Your task to perform on an android device: move a message to another label in the gmail app Image 0: 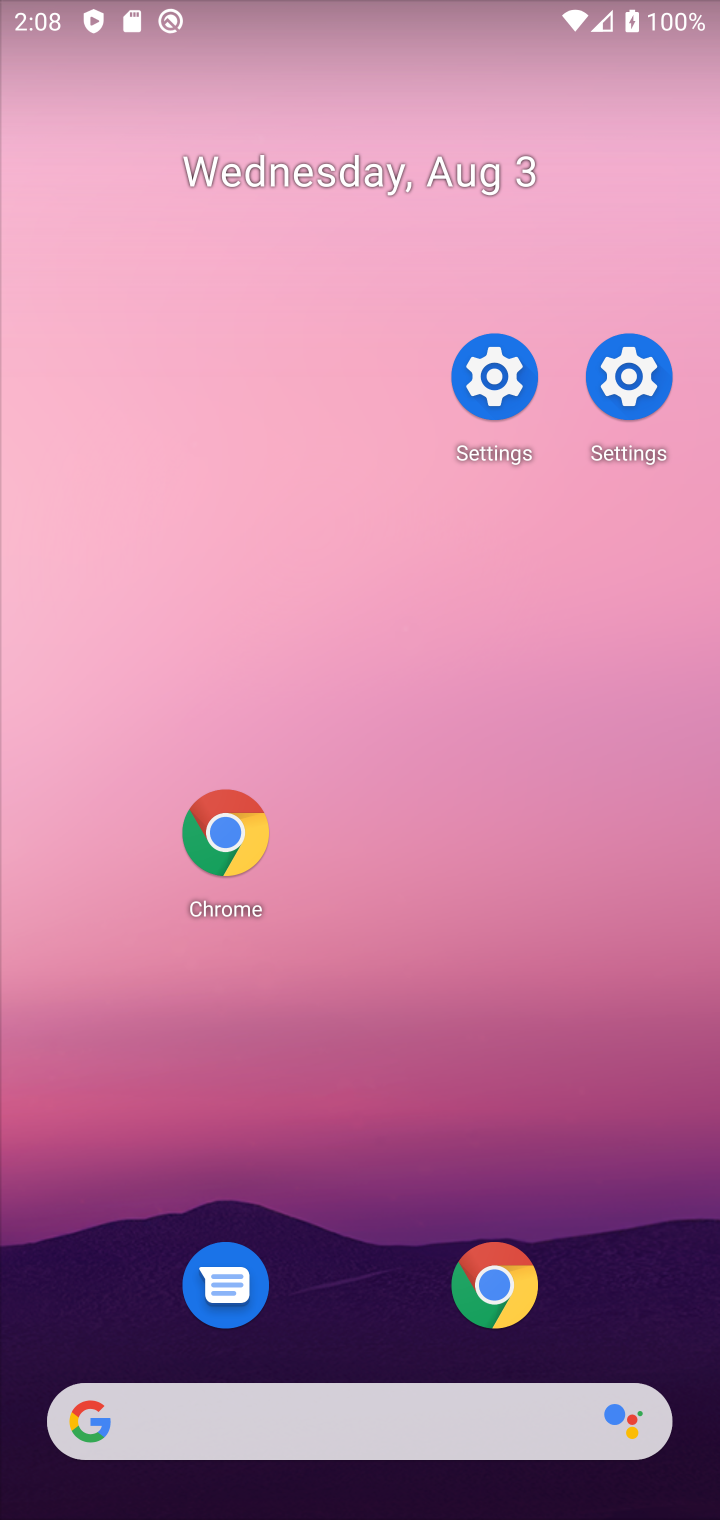
Step 0: drag from (272, 771) to (308, 540)
Your task to perform on an android device: move a message to another label in the gmail app Image 1: 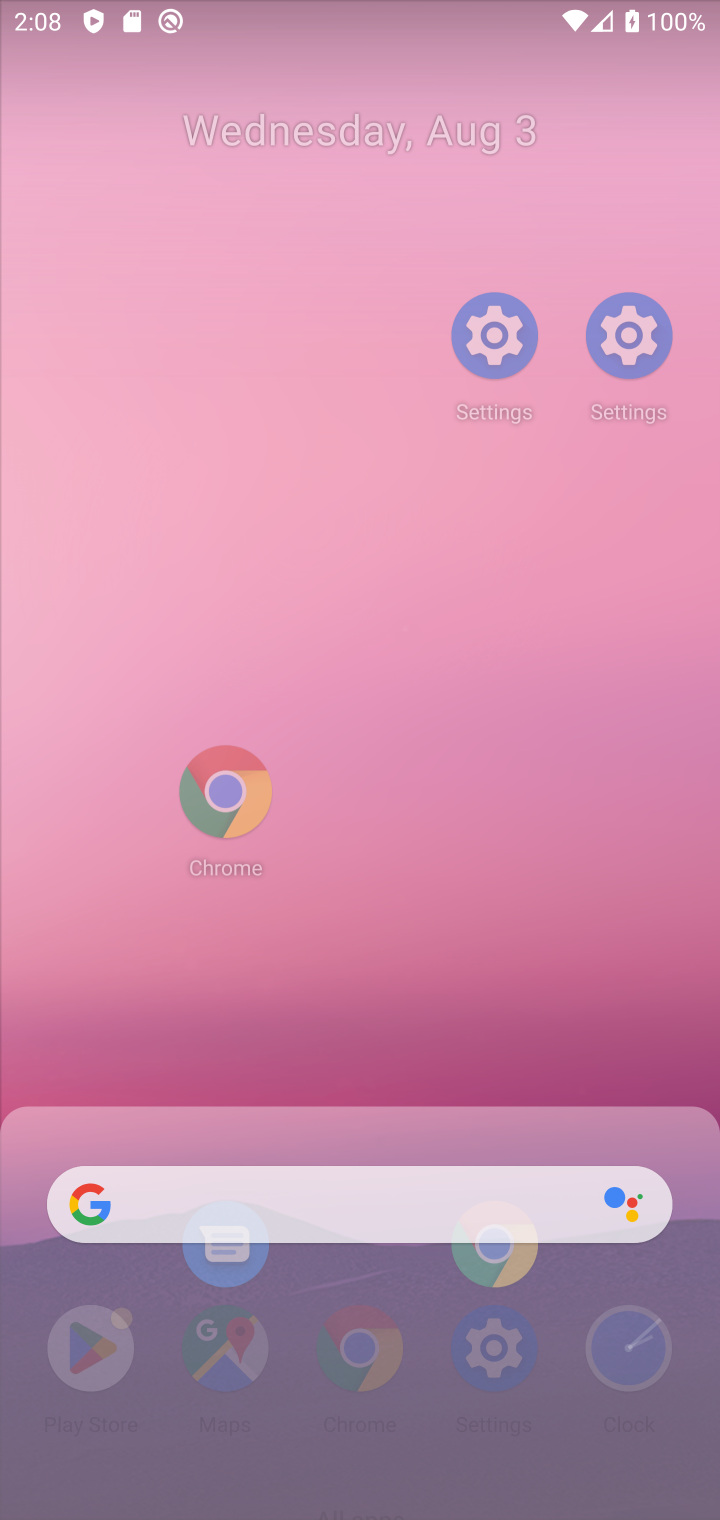
Step 1: drag from (409, 1427) to (389, 101)
Your task to perform on an android device: move a message to another label in the gmail app Image 2: 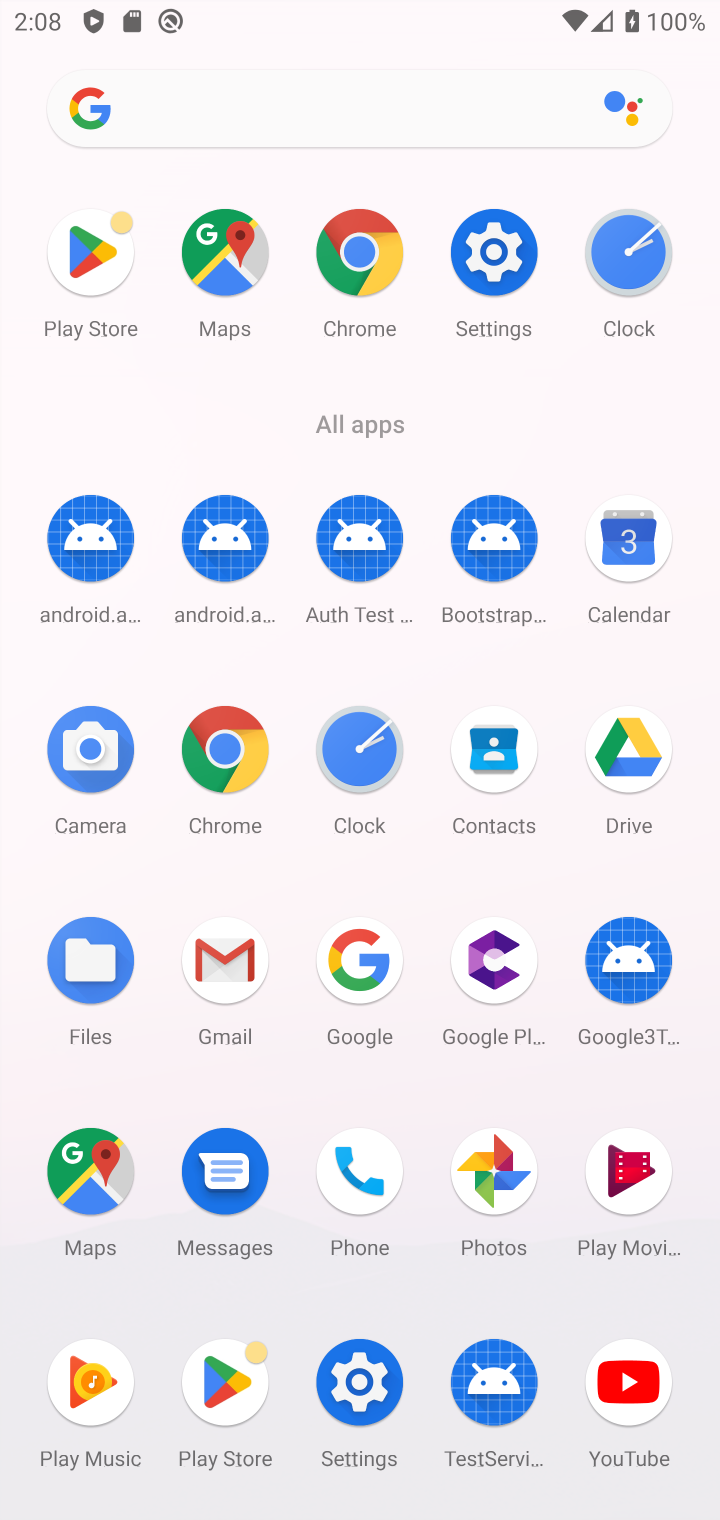
Step 2: click (224, 959)
Your task to perform on an android device: move a message to another label in the gmail app Image 3: 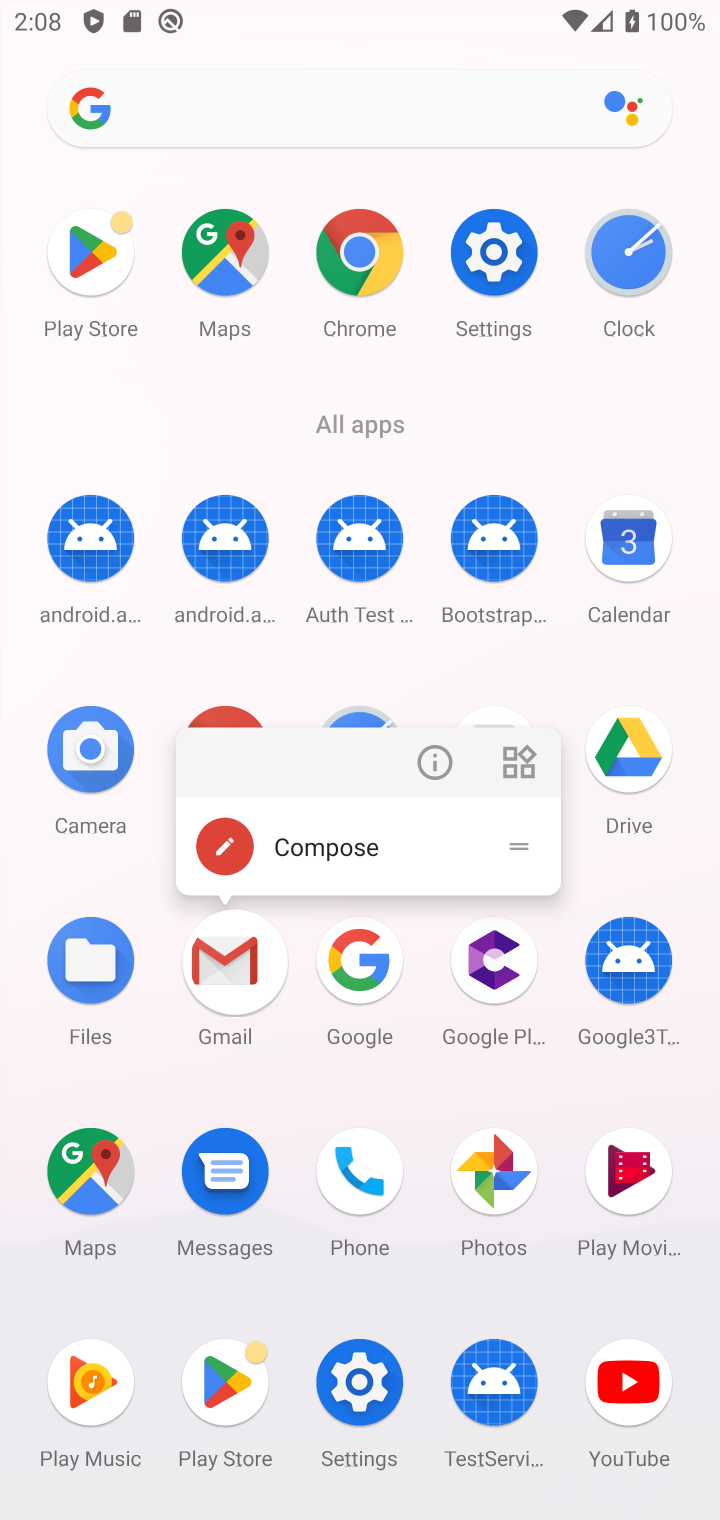
Step 3: click (217, 975)
Your task to perform on an android device: move a message to another label in the gmail app Image 4: 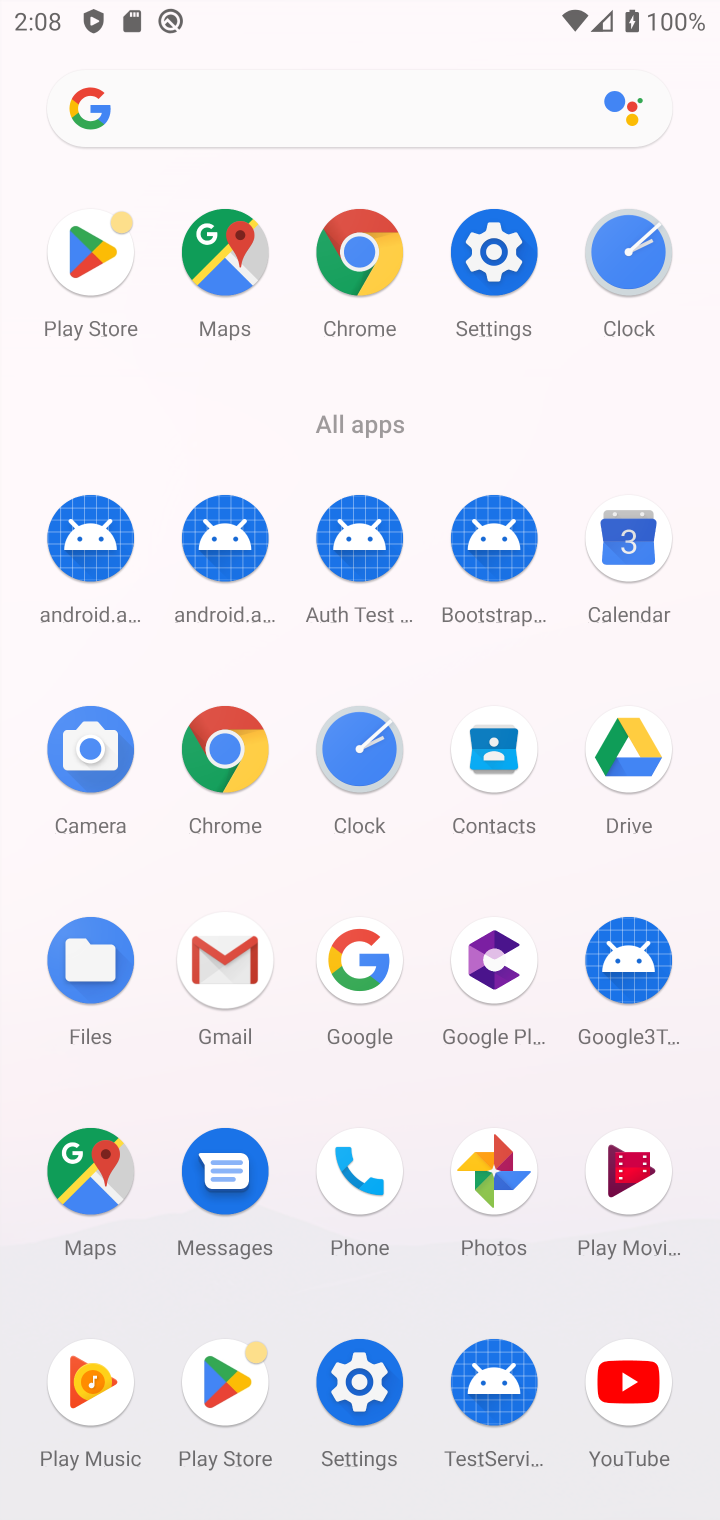
Step 4: click (219, 952)
Your task to perform on an android device: move a message to another label in the gmail app Image 5: 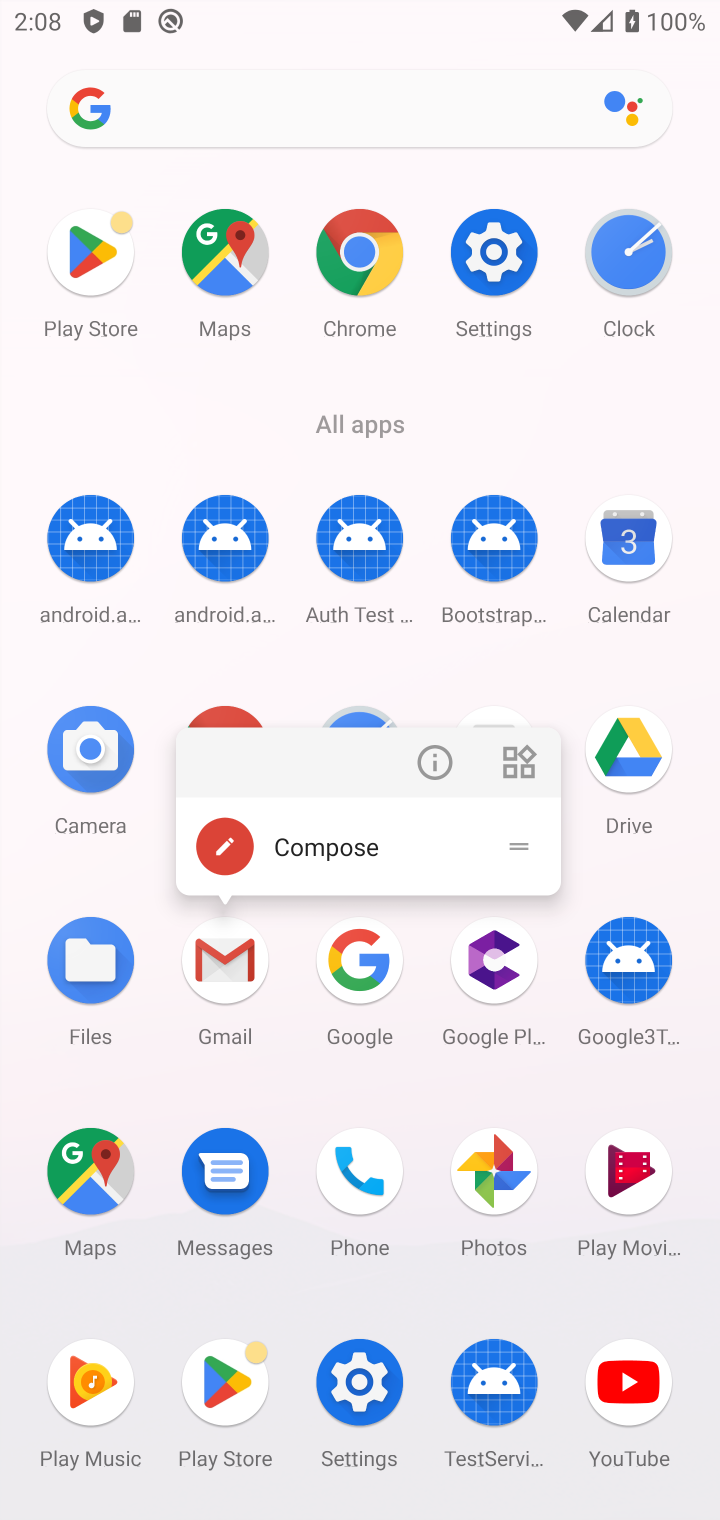
Step 5: click (215, 958)
Your task to perform on an android device: move a message to another label in the gmail app Image 6: 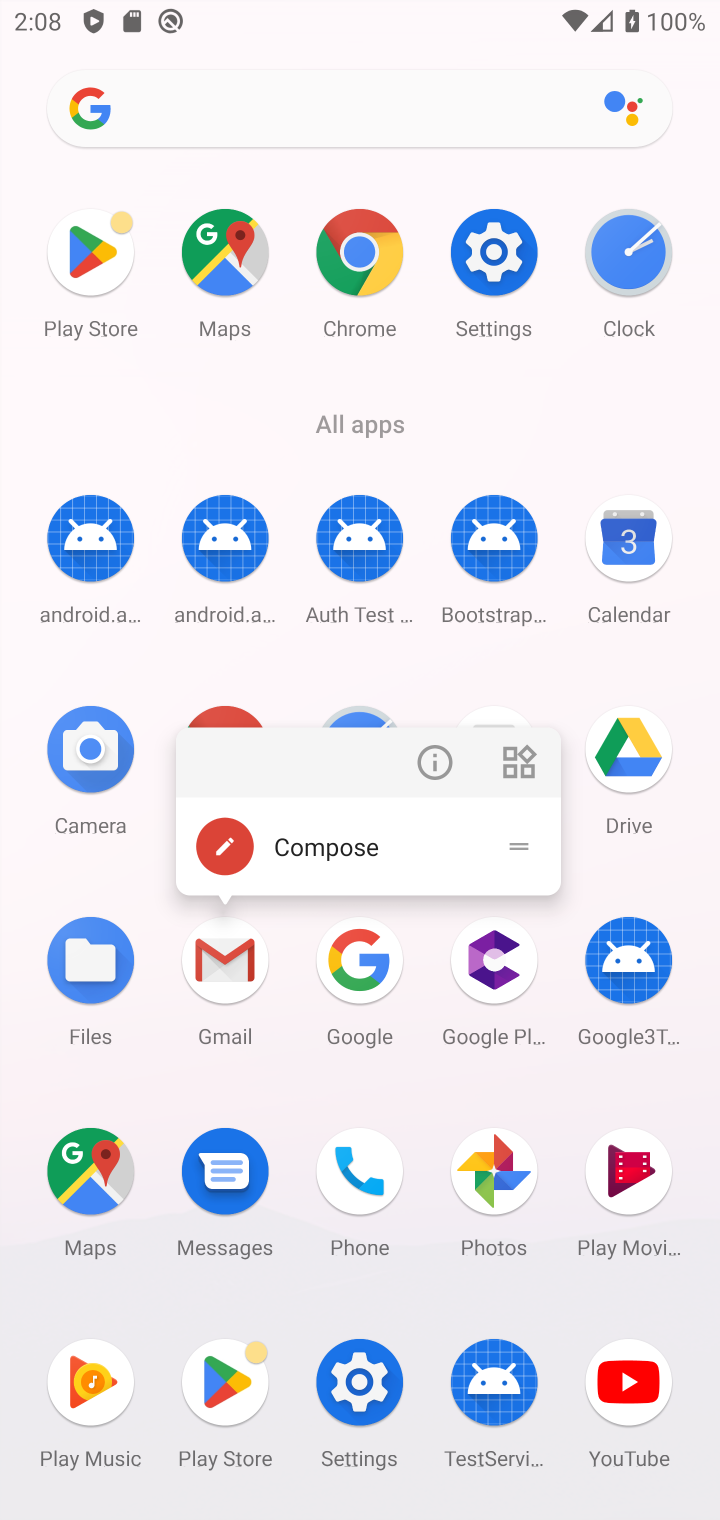
Step 6: click (219, 968)
Your task to perform on an android device: move a message to another label in the gmail app Image 7: 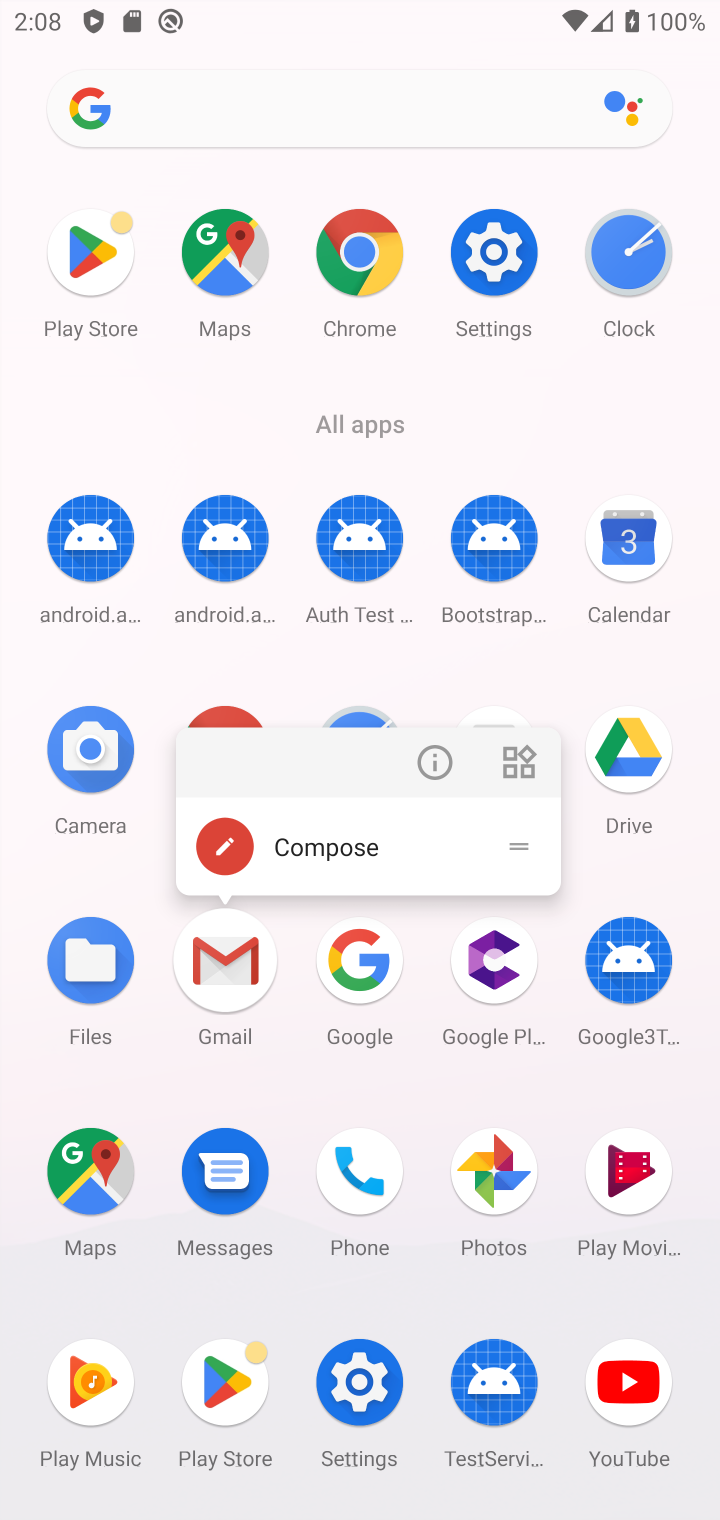
Step 7: click (222, 947)
Your task to perform on an android device: move a message to another label in the gmail app Image 8: 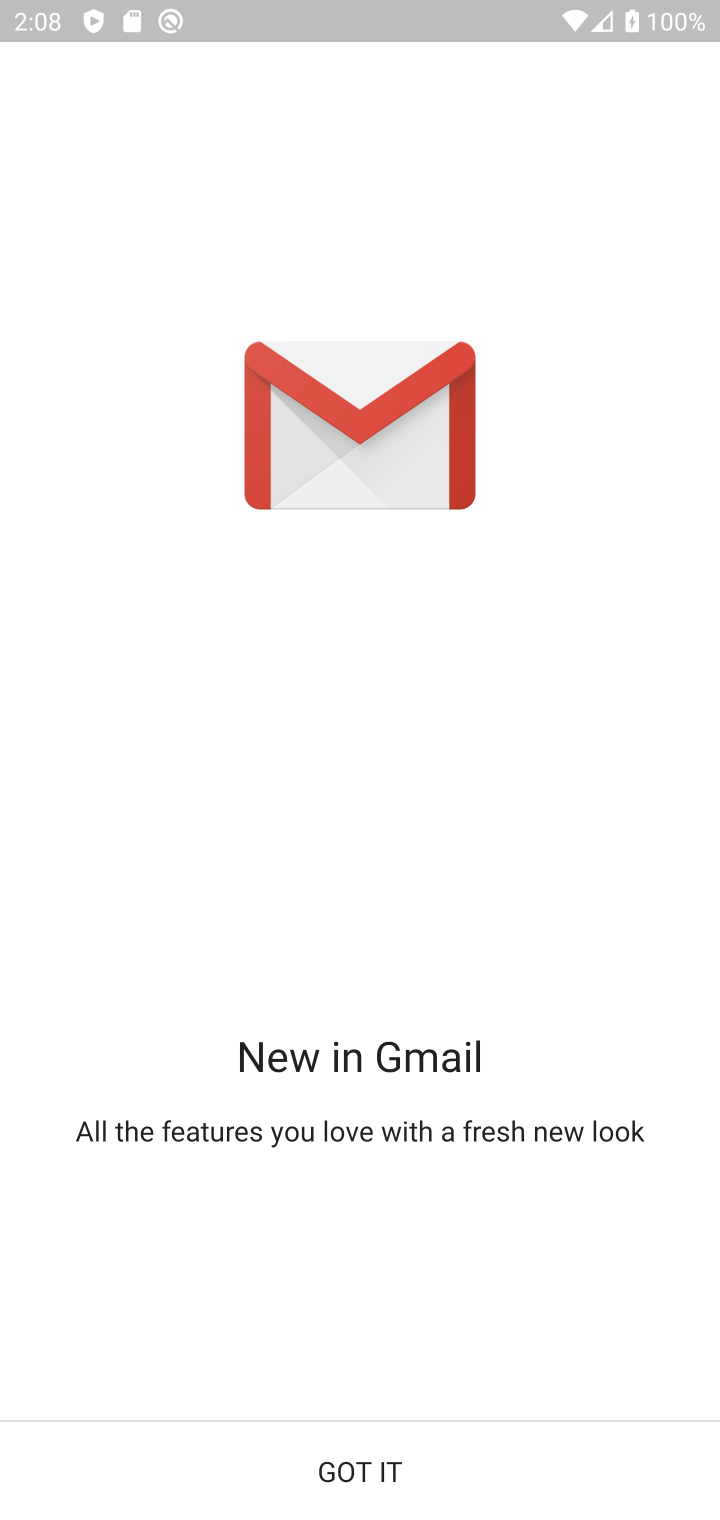
Step 8: click (429, 1446)
Your task to perform on an android device: move a message to another label in the gmail app Image 9: 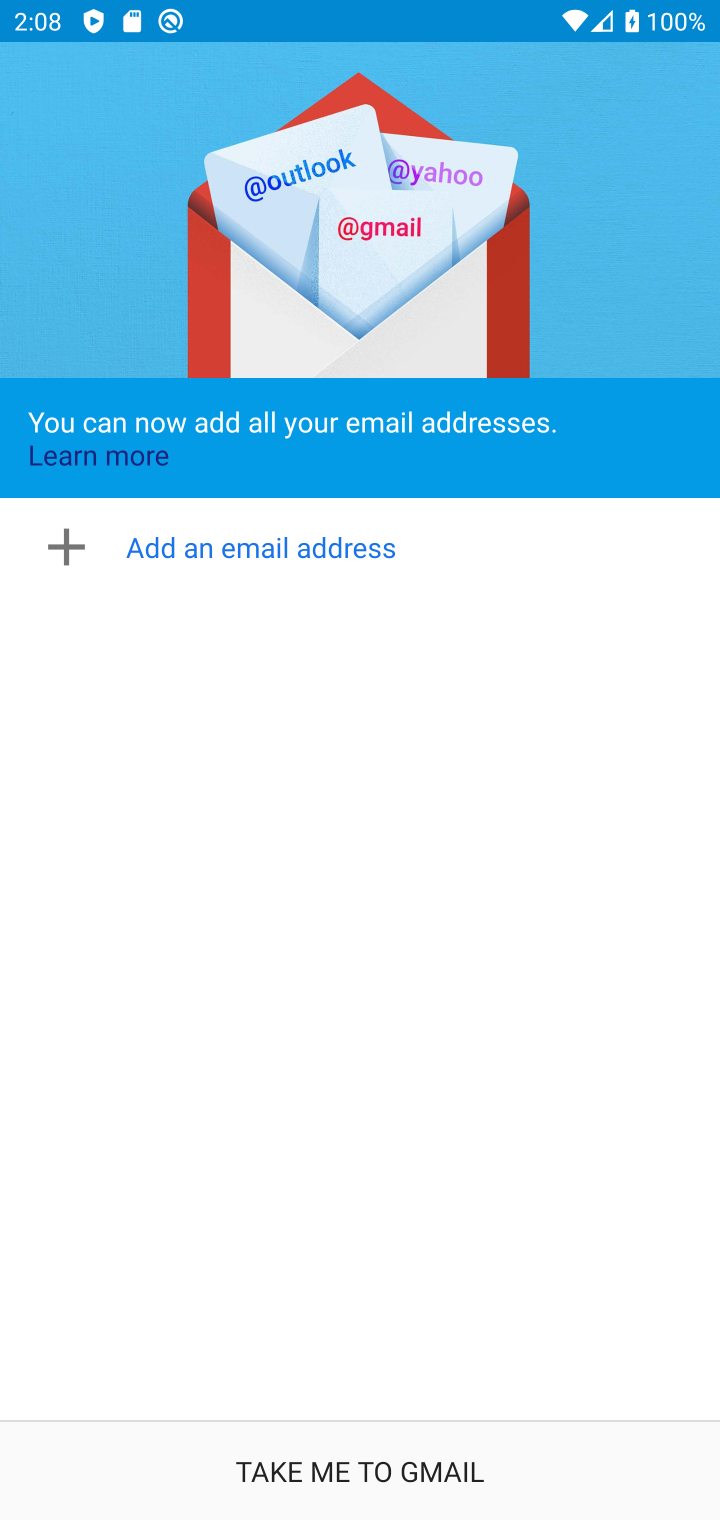
Step 9: press back button
Your task to perform on an android device: move a message to another label in the gmail app Image 10: 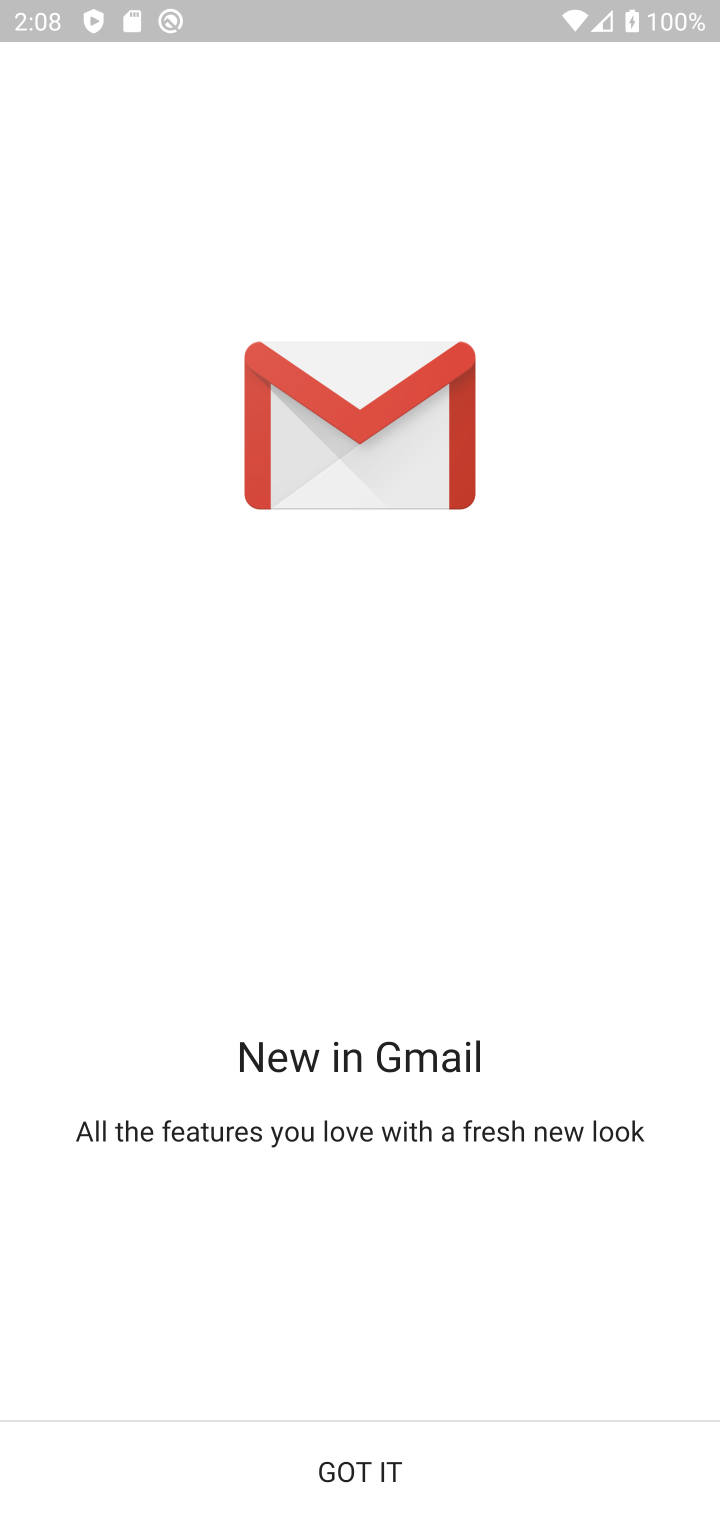
Step 10: click (345, 1440)
Your task to perform on an android device: move a message to another label in the gmail app Image 11: 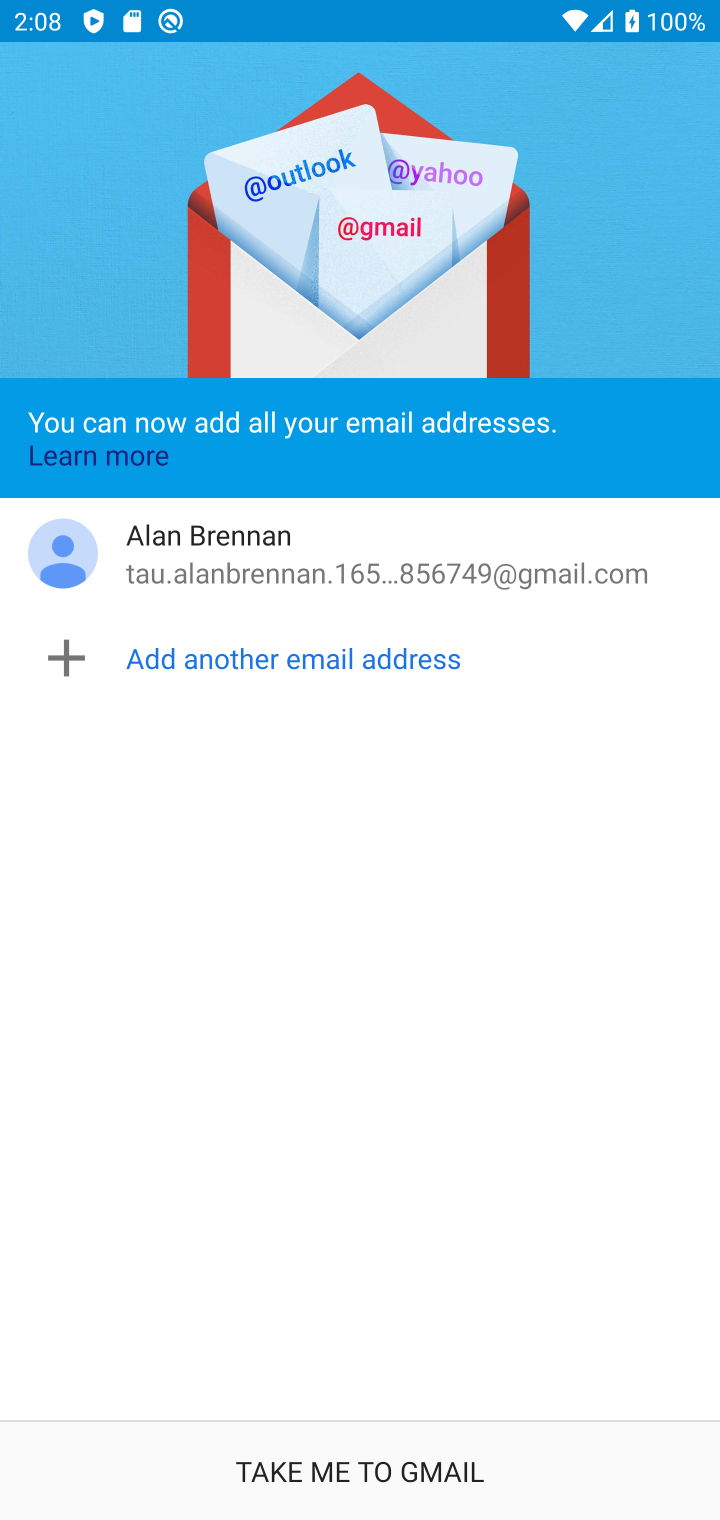
Step 11: click (322, 1469)
Your task to perform on an android device: move a message to another label in the gmail app Image 12: 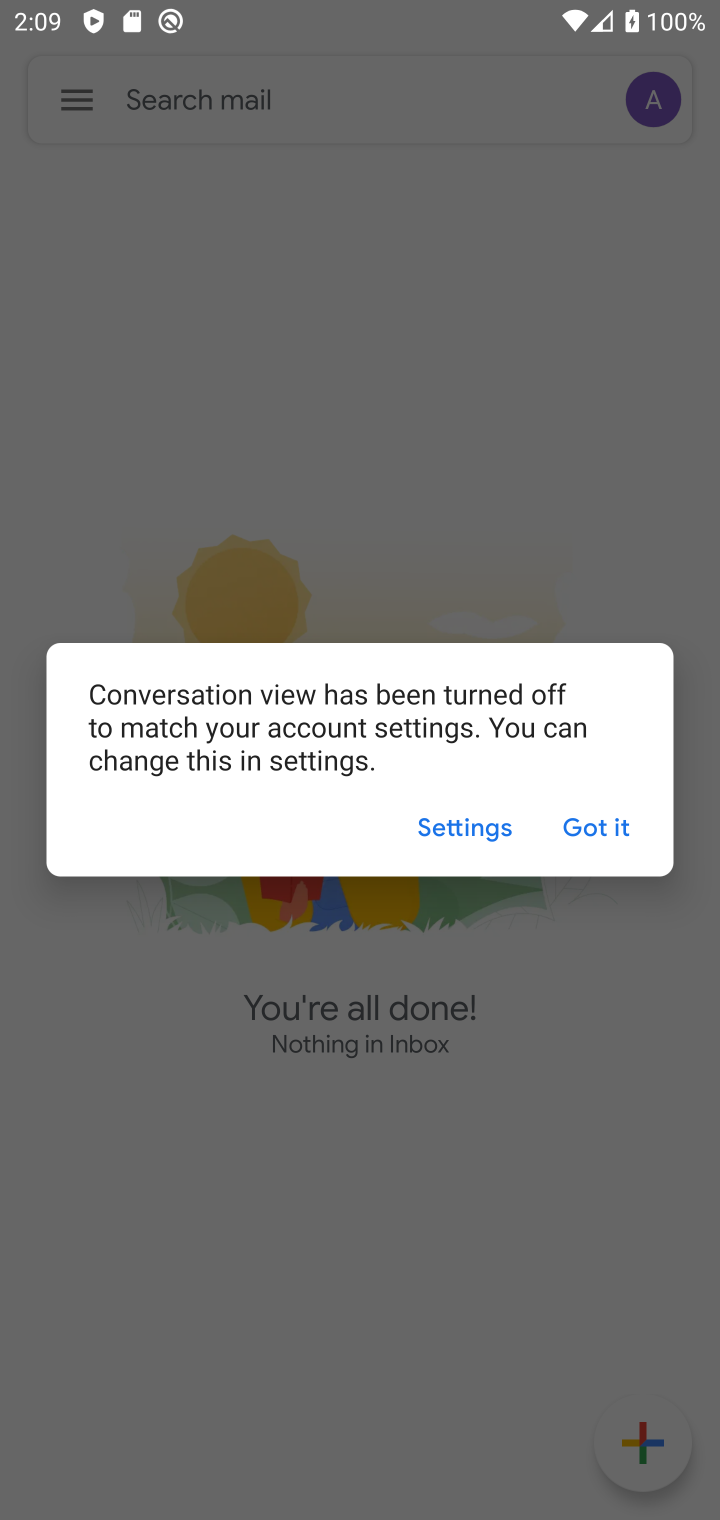
Step 12: click (573, 814)
Your task to perform on an android device: move a message to another label in the gmail app Image 13: 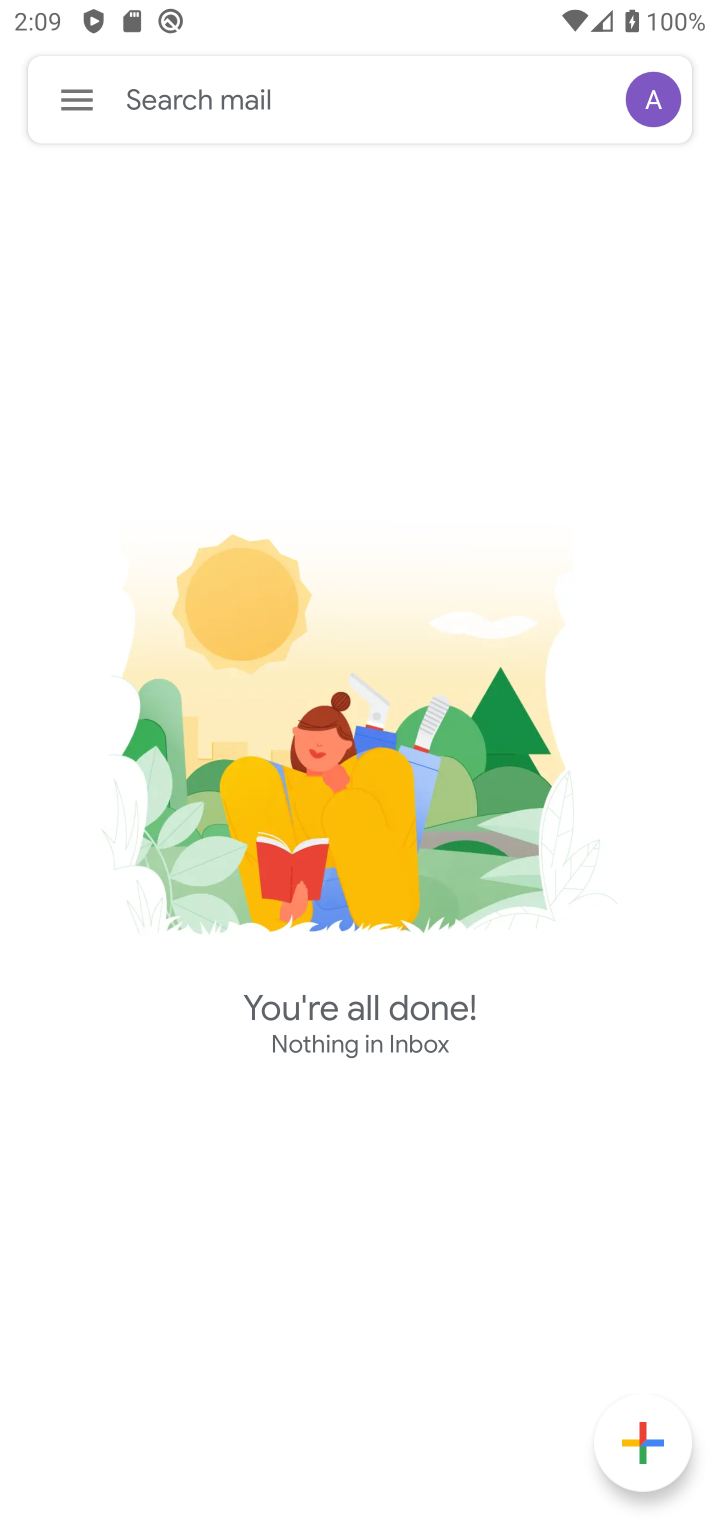
Step 13: press back button
Your task to perform on an android device: move a message to another label in the gmail app Image 14: 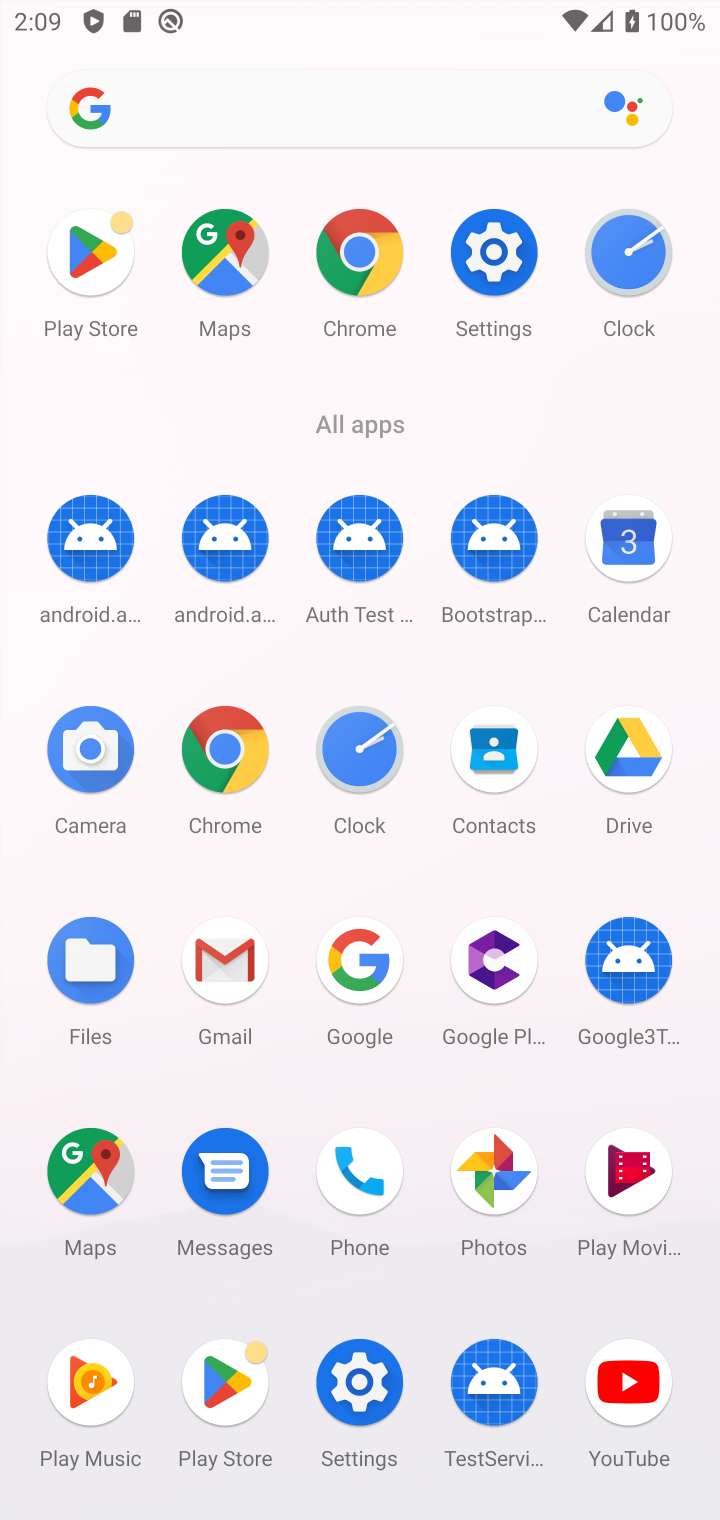
Step 14: click (220, 978)
Your task to perform on an android device: move a message to another label in the gmail app Image 15: 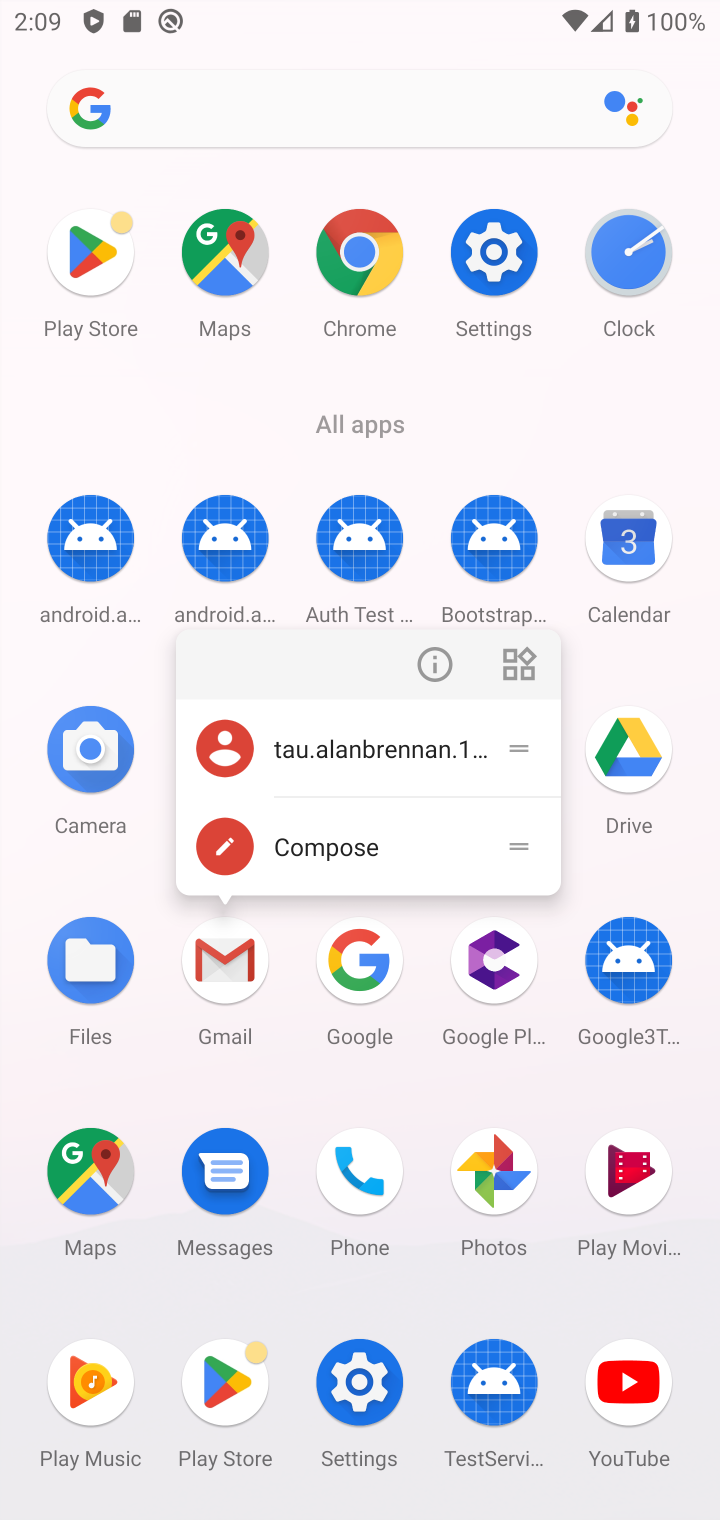
Step 15: click (291, 841)
Your task to perform on an android device: move a message to another label in the gmail app Image 16: 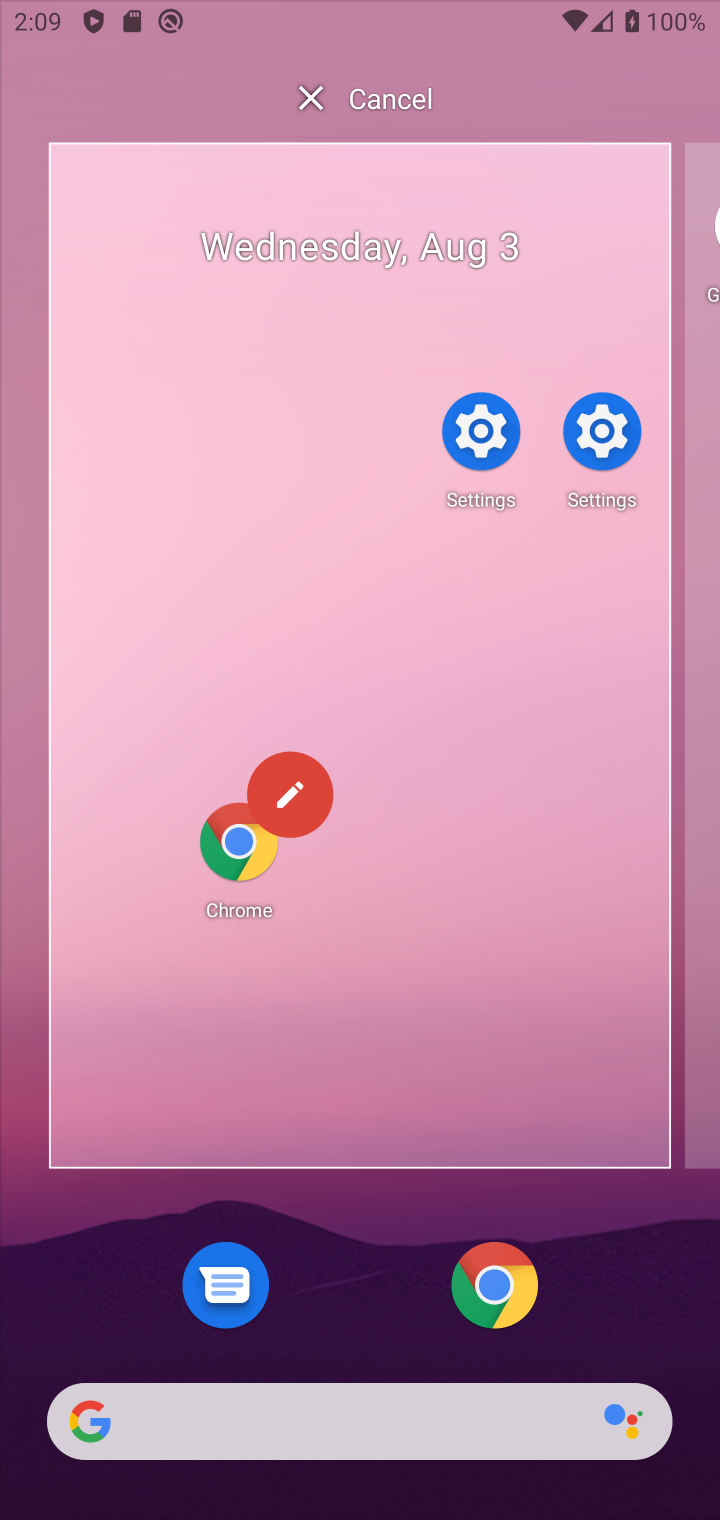
Step 16: click (293, 837)
Your task to perform on an android device: move a message to another label in the gmail app Image 17: 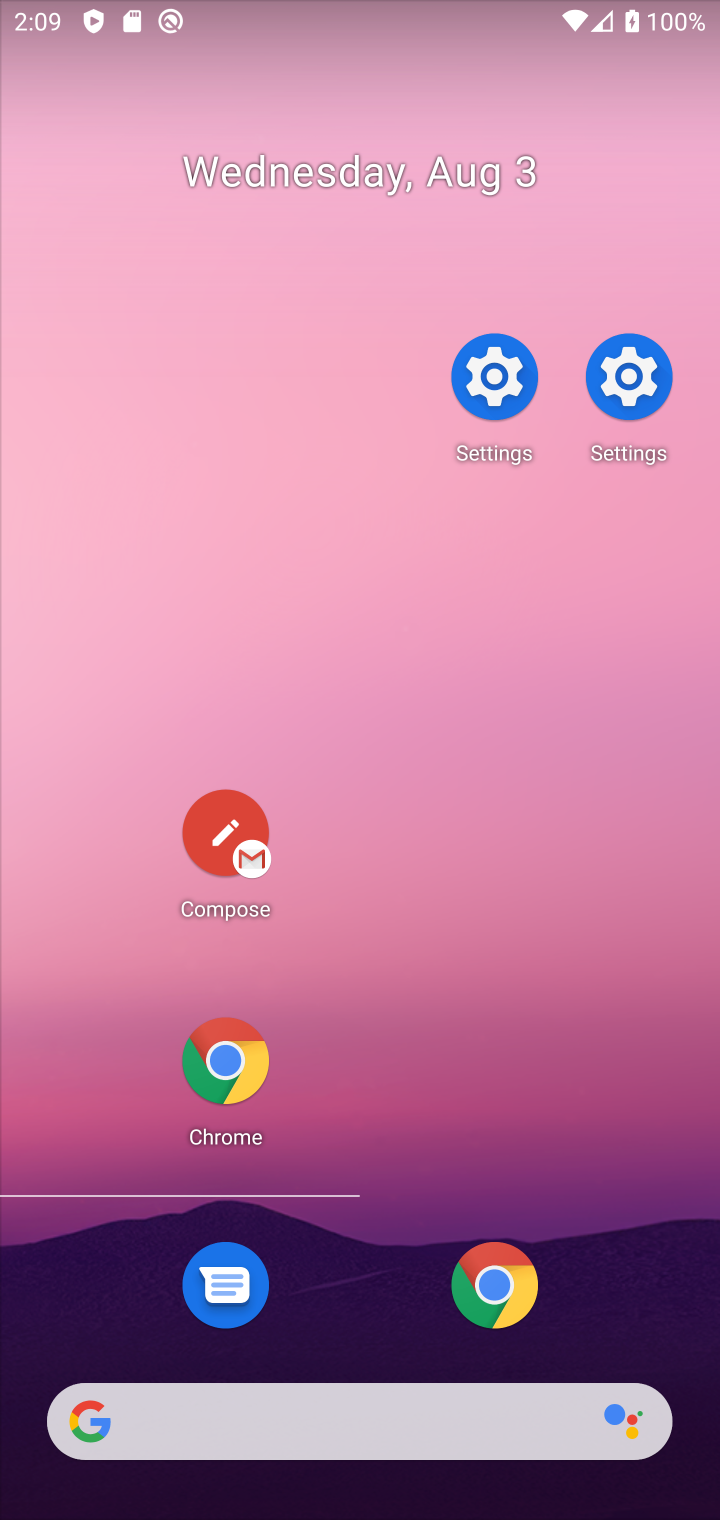
Step 17: drag from (130, 505) to (207, 438)
Your task to perform on an android device: move a message to another label in the gmail app Image 18: 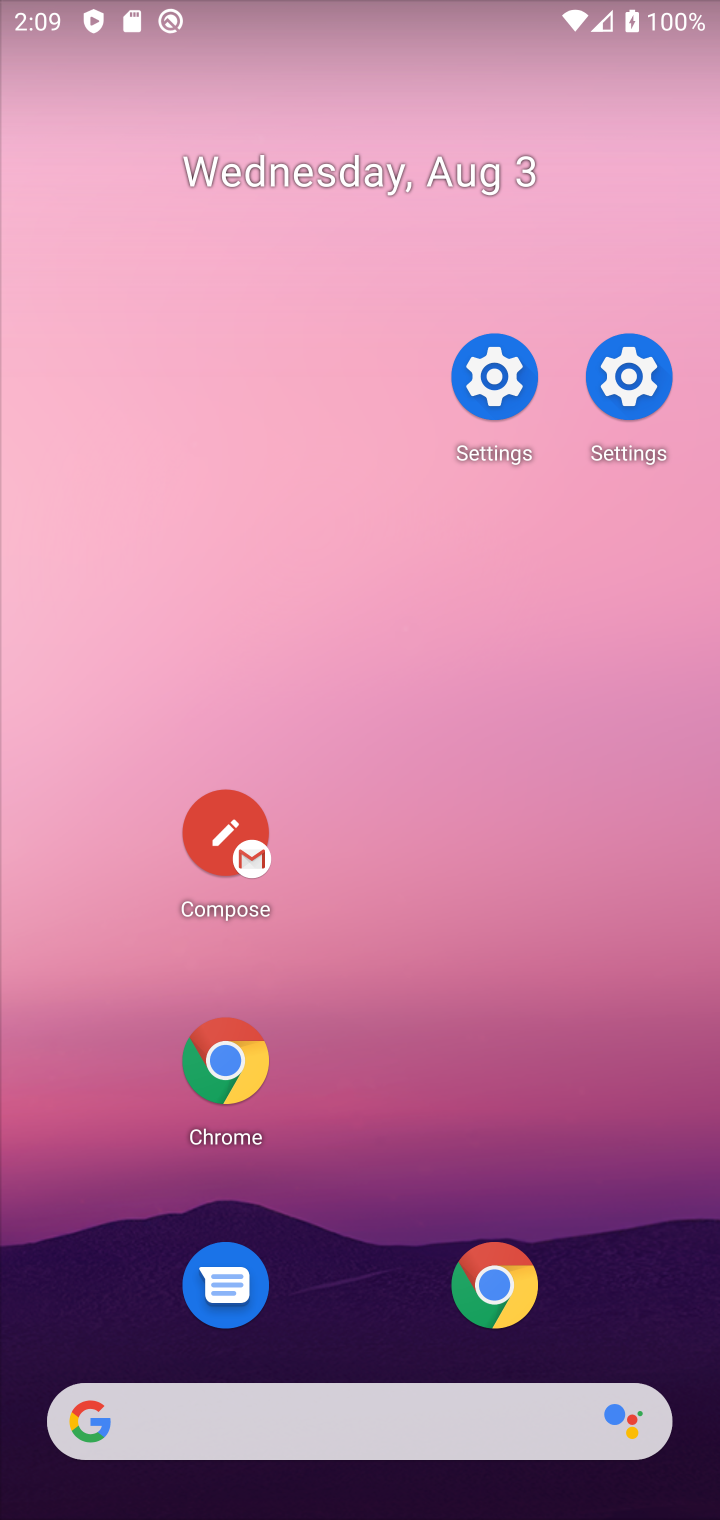
Step 18: drag from (423, 1244) to (220, 568)
Your task to perform on an android device: move a message to another label in the gmail app Image 19: 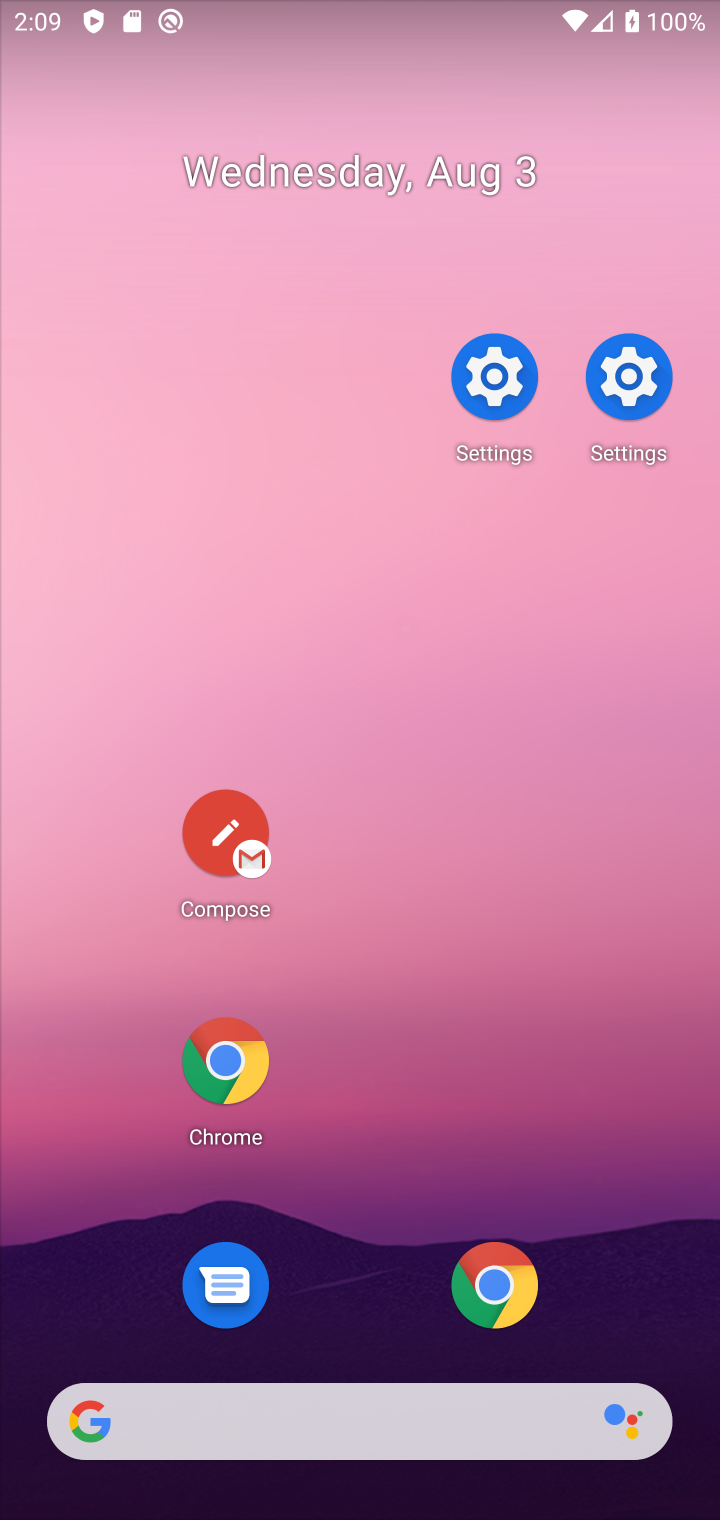
Step 19: click (126, 253)
Your task to perform on an android device: move a message to another label in the gmail app Image 20: 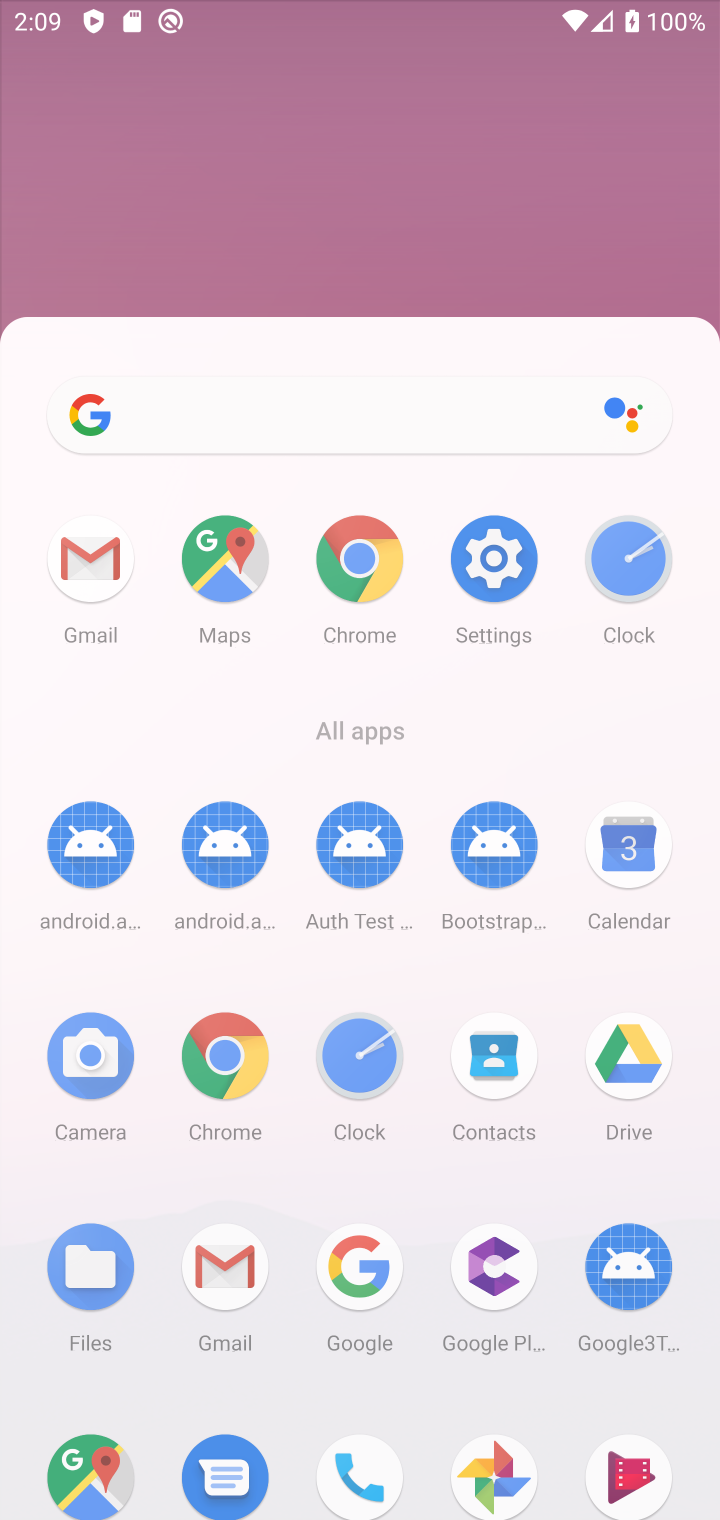
Step 20: drag from (201, 439) to (117, 169)
Your task to perform on an android device: move a message to another label in the gmail app Image 21: 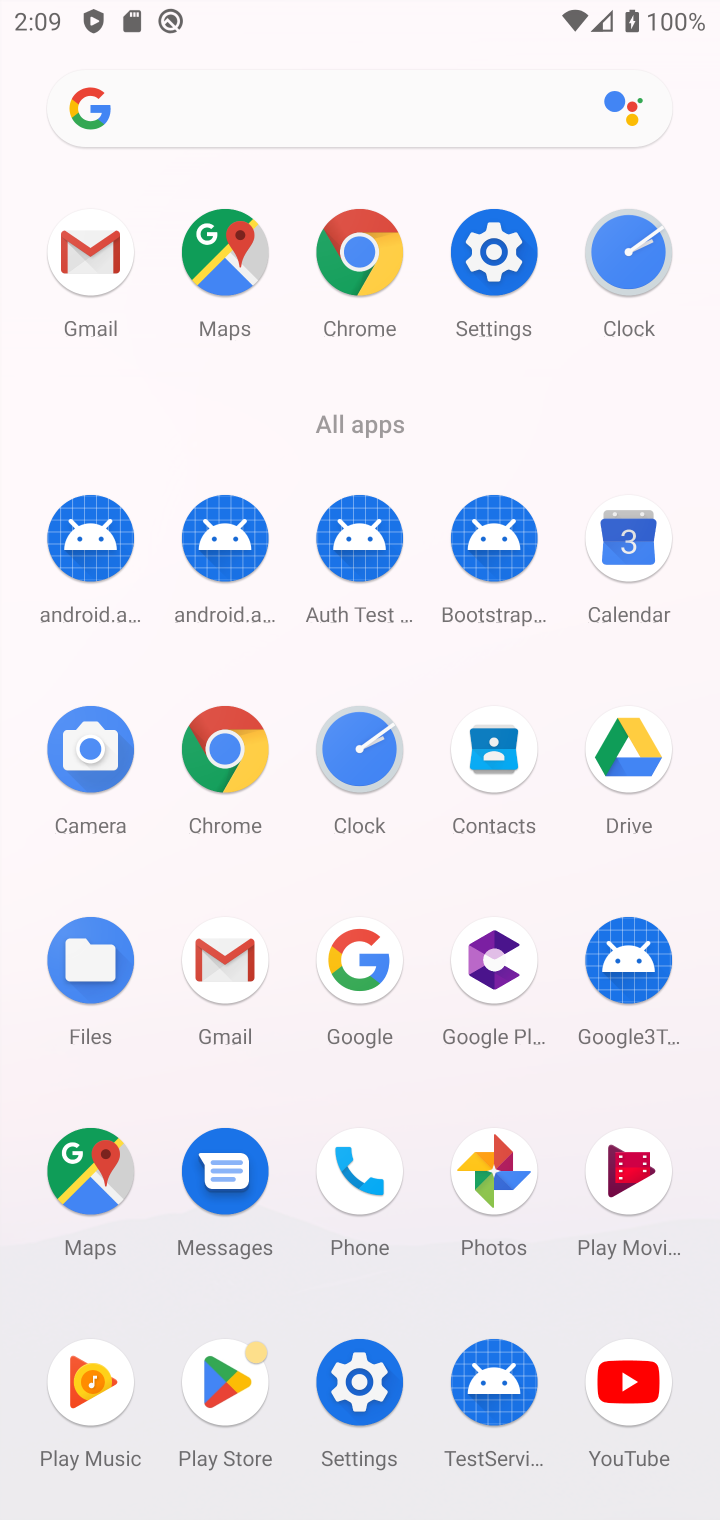
Step 21: click (228, 981)
Your task to perform on an android device: move a message to another label in the gmail app Image 22: 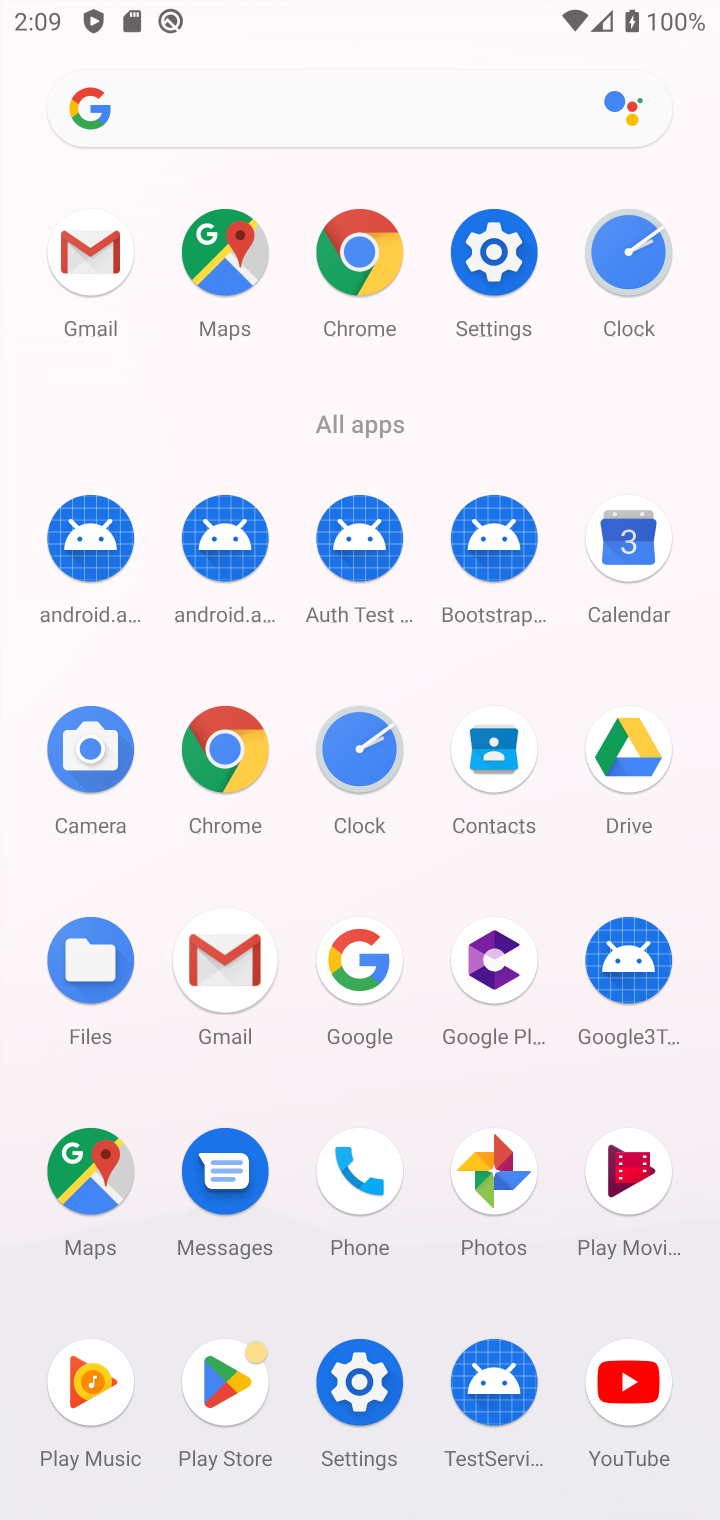
Step 22: click (232, 977)
Your task to perform on an android device: move a message to another label in the gmail app Image 23: 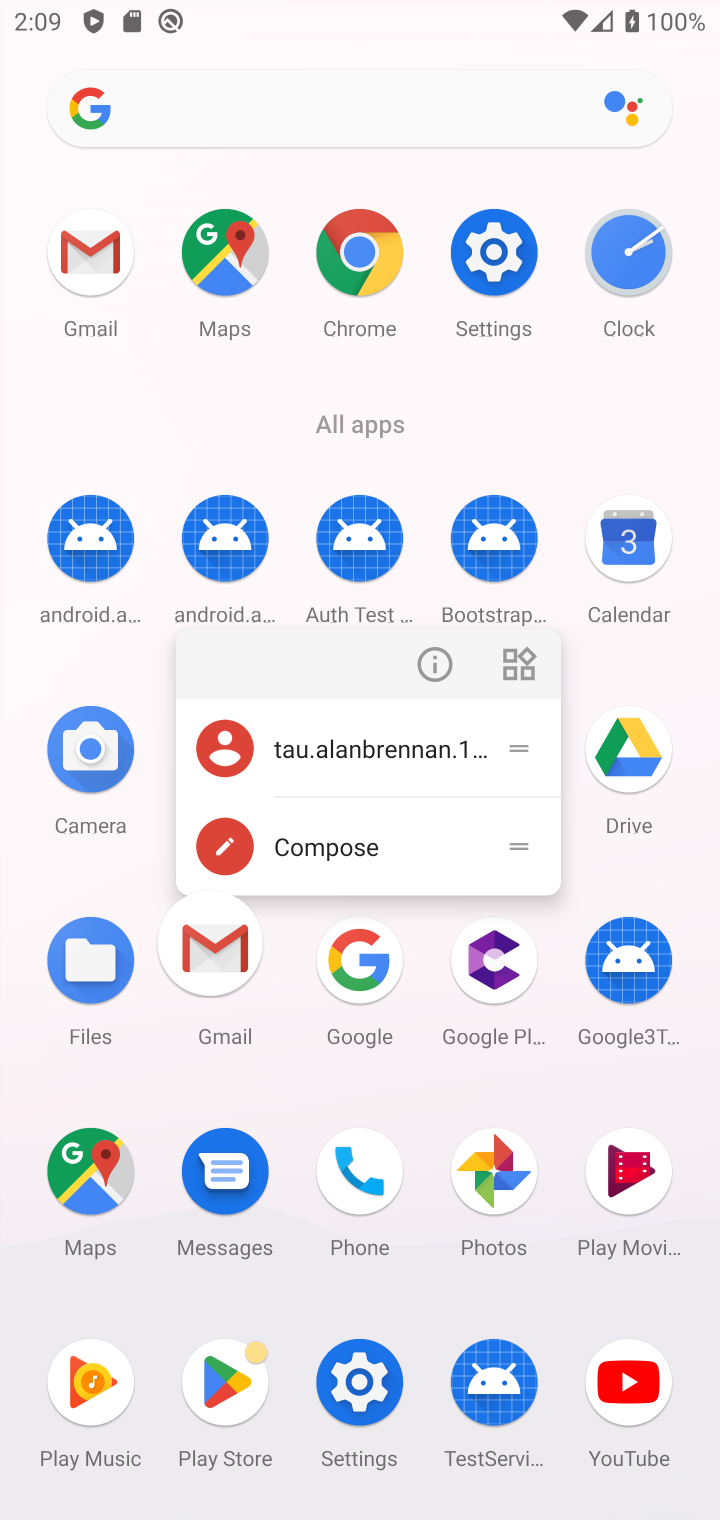
Step 23: click (223, 969)
Your task to perform on an android device: move a message to another label in the gmail app Image 24: 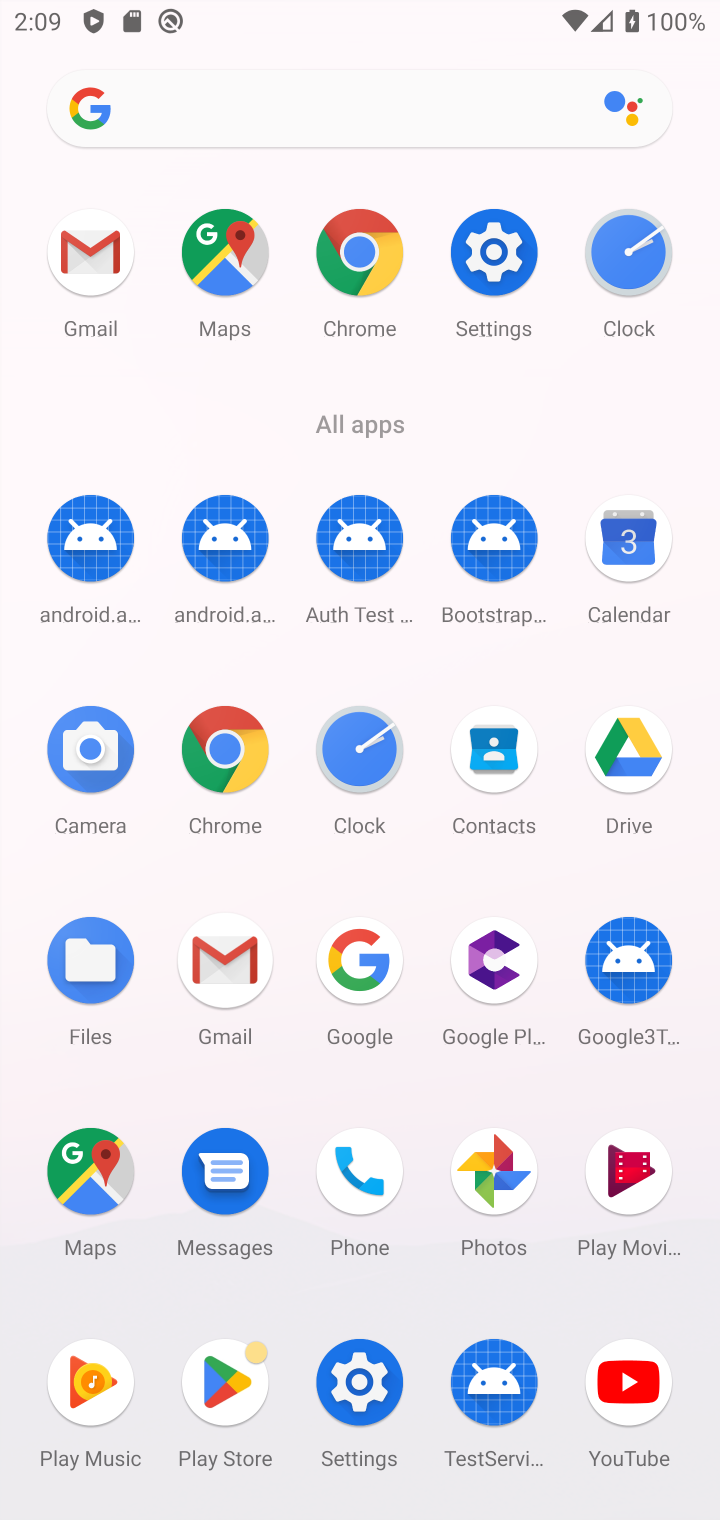
Step 24: click (223, 973)
Your task to perform on an android device: move a message to another label in the gmail app Image 25: 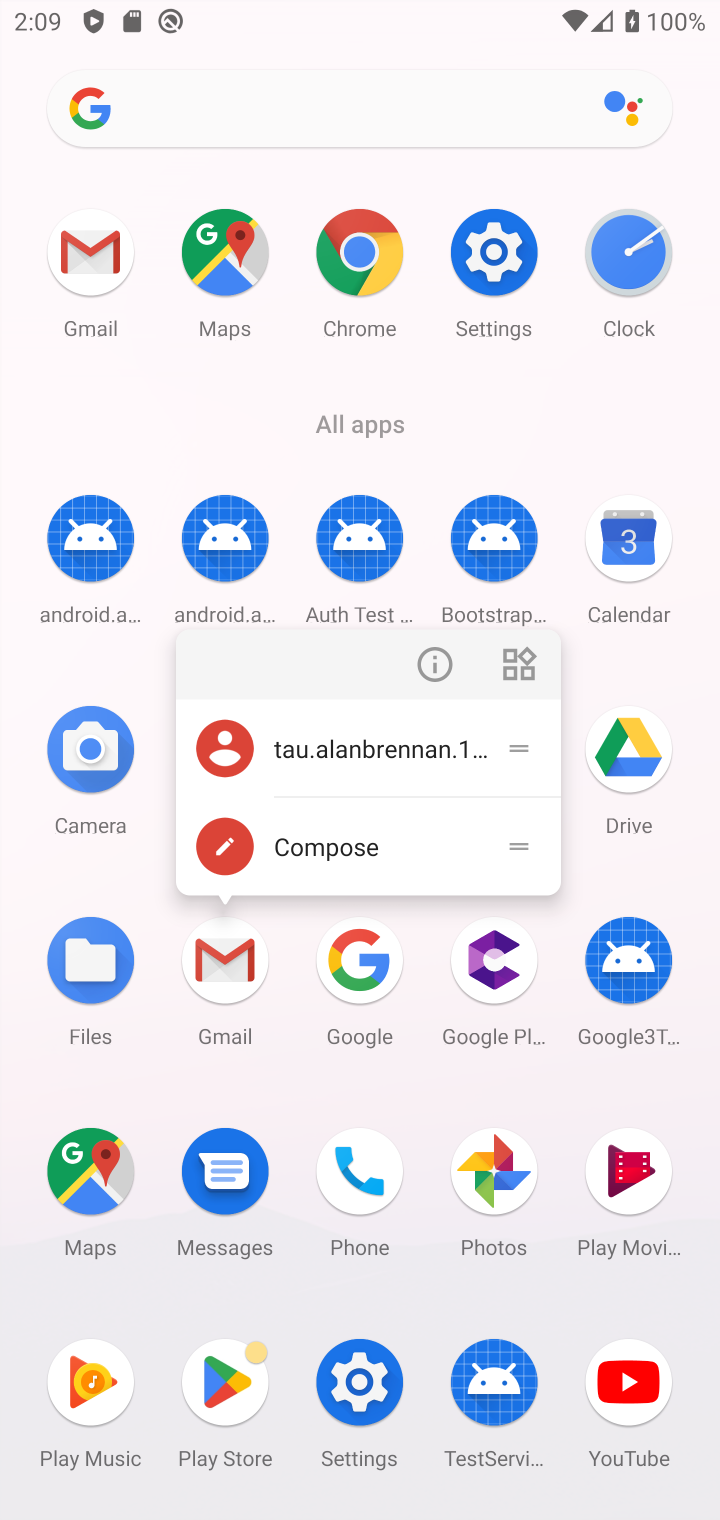
Step 25: click (200, 957)
Your task to perform on an android device: move a message to another label in the gmail app Image 26: 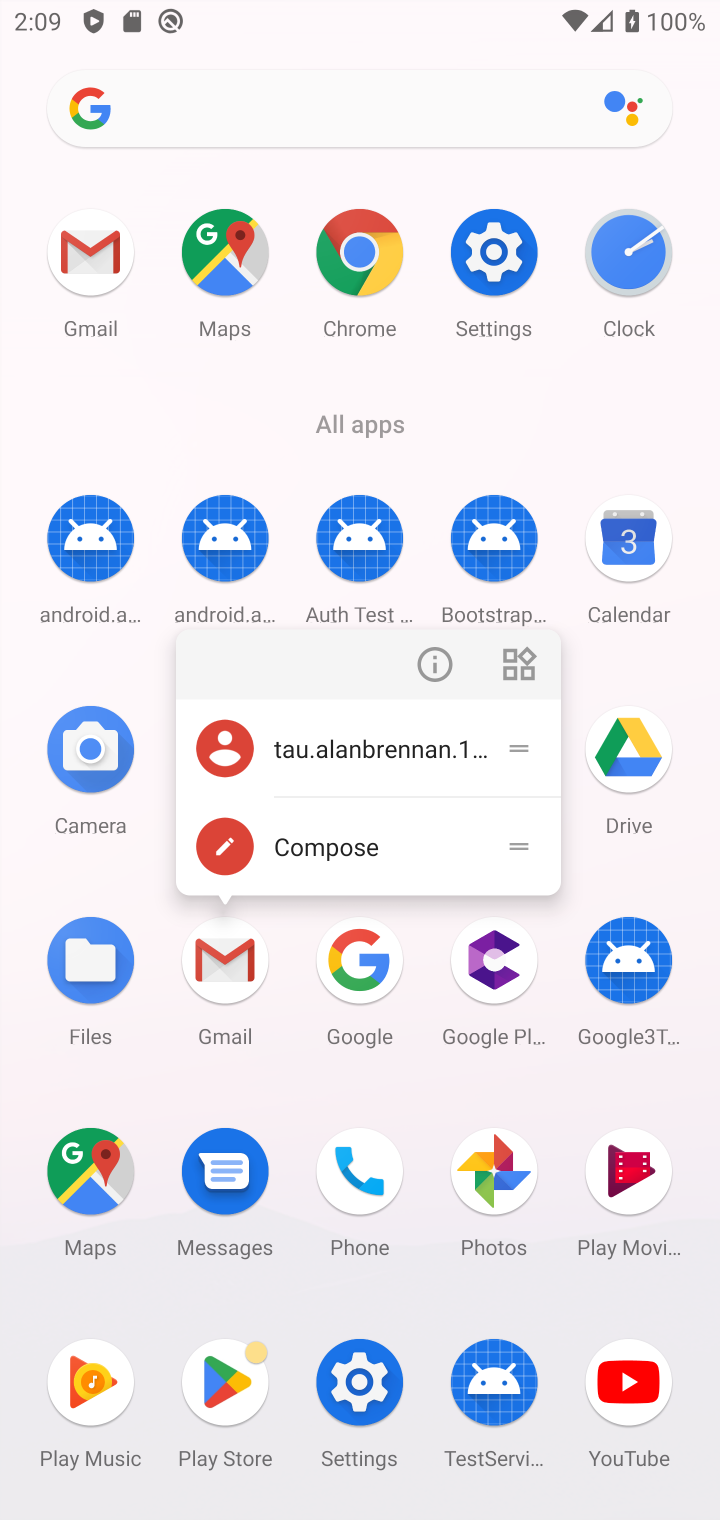
Step 26: click (207, 962)
Your task to perform on an android device: move a message to another label in the gmail app Image 27: 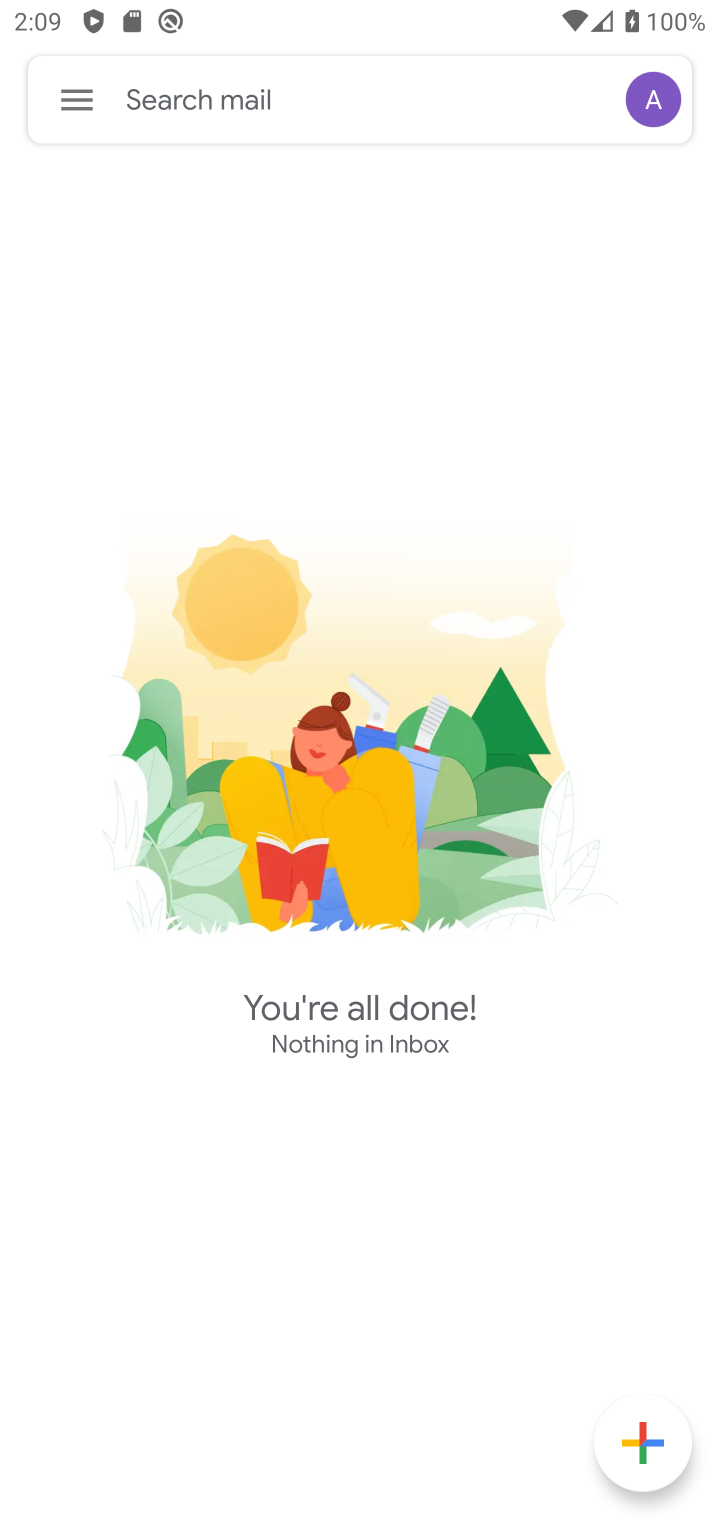
Step 27: drag from (70, 87) to (206, 1086)
Your task to perform on an android device: move a message to another label in the gmail app Image 28: 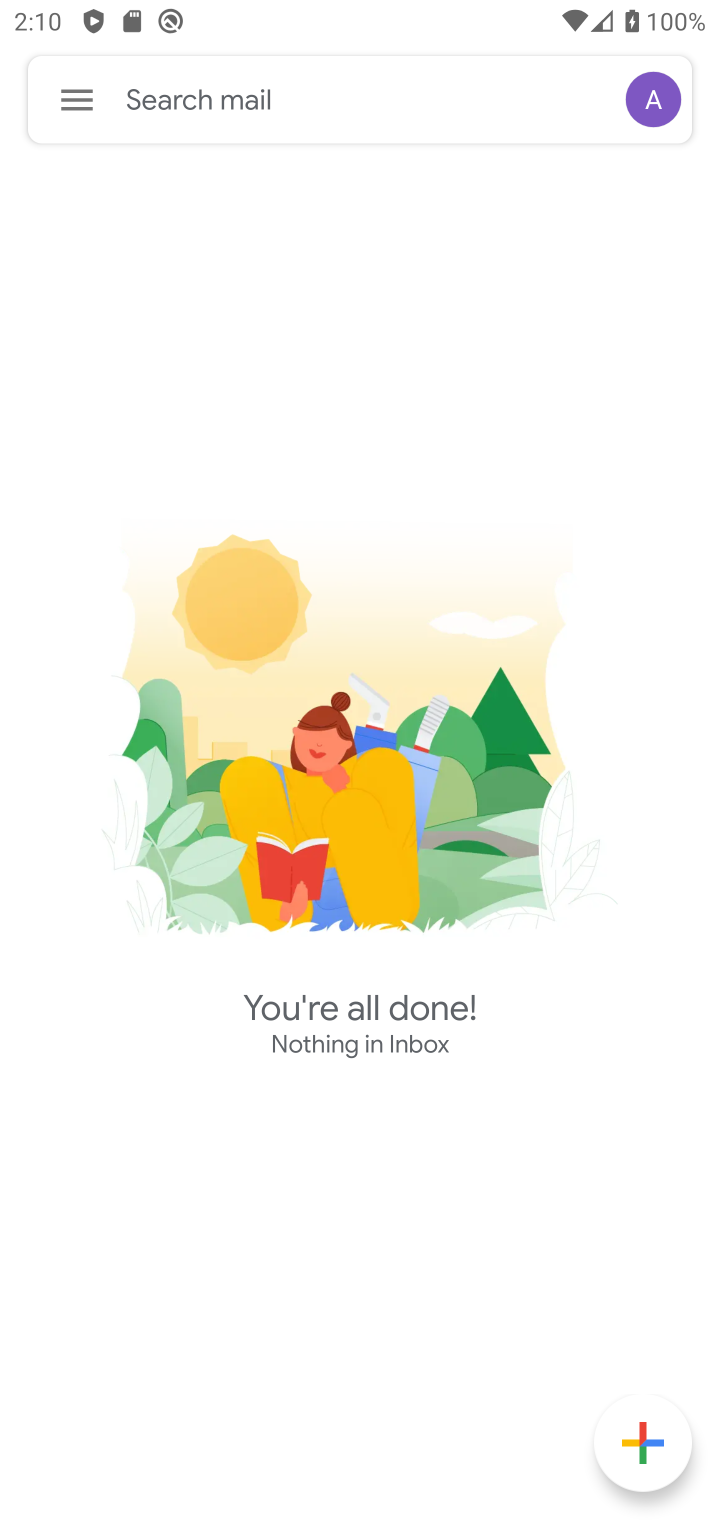
Step 28: drag from (70, 99) to (93, 443)
Your task to perform on an android device: move a message to another label in the gmail app Image 29: 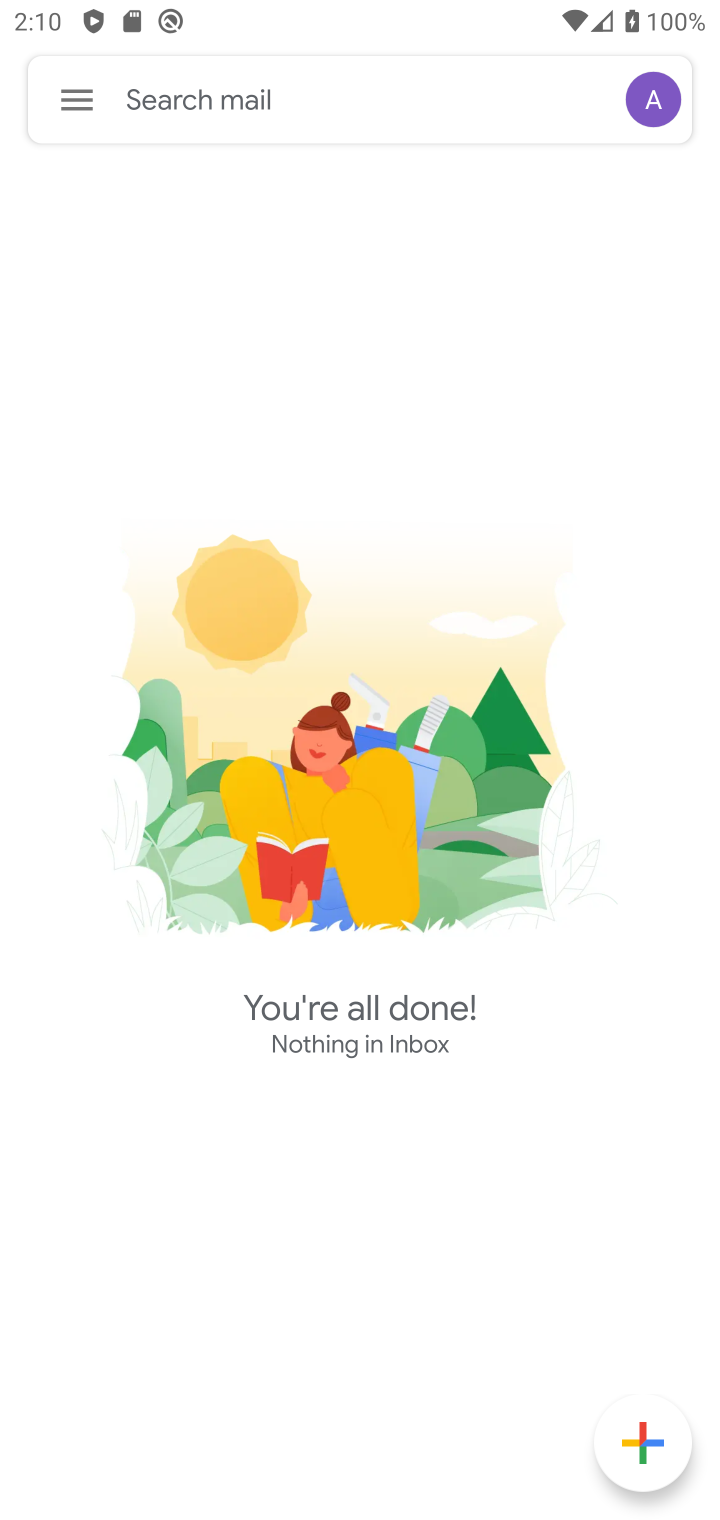
Step 29: drag from (85, 96) to (93, 369)
Your task to perform on an android device: move a message to another label in the gmail app Image 30: 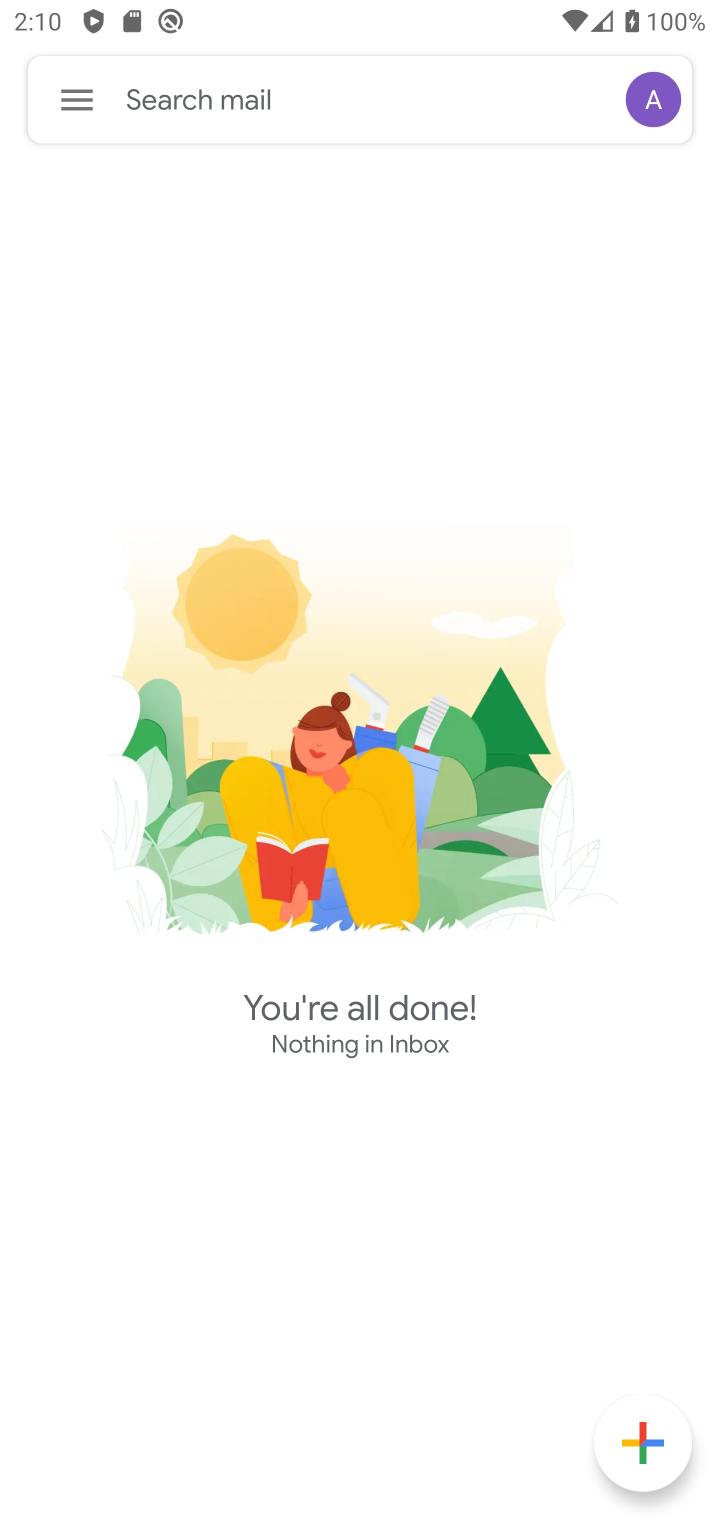
Step 30: click (91, 104)
Your task to perform on an android device: move a message to another label in the gmail app Image 31: 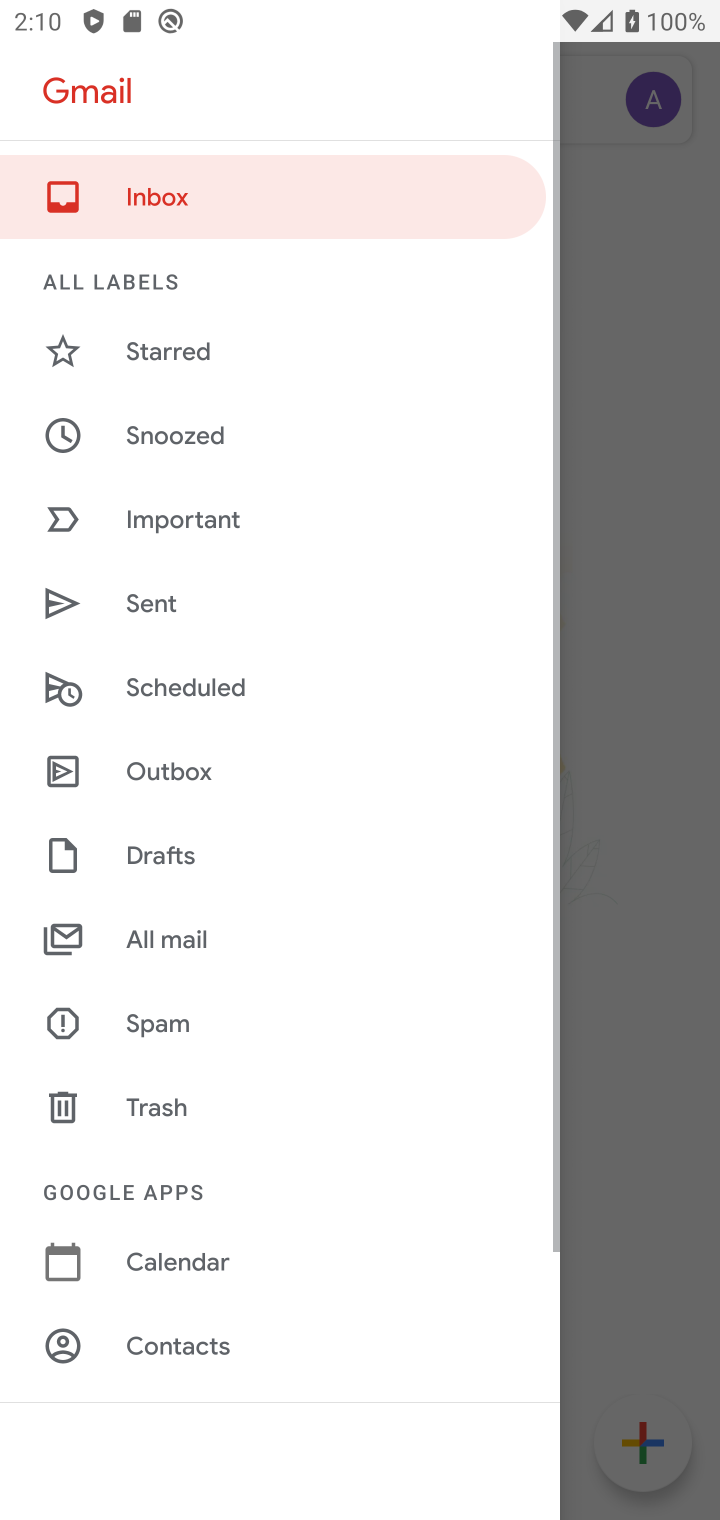
Step 31: drag from (190, 1205) to (175, 514)
Your task to perform on an android device: move a message to another label in the gmail app Image 32: 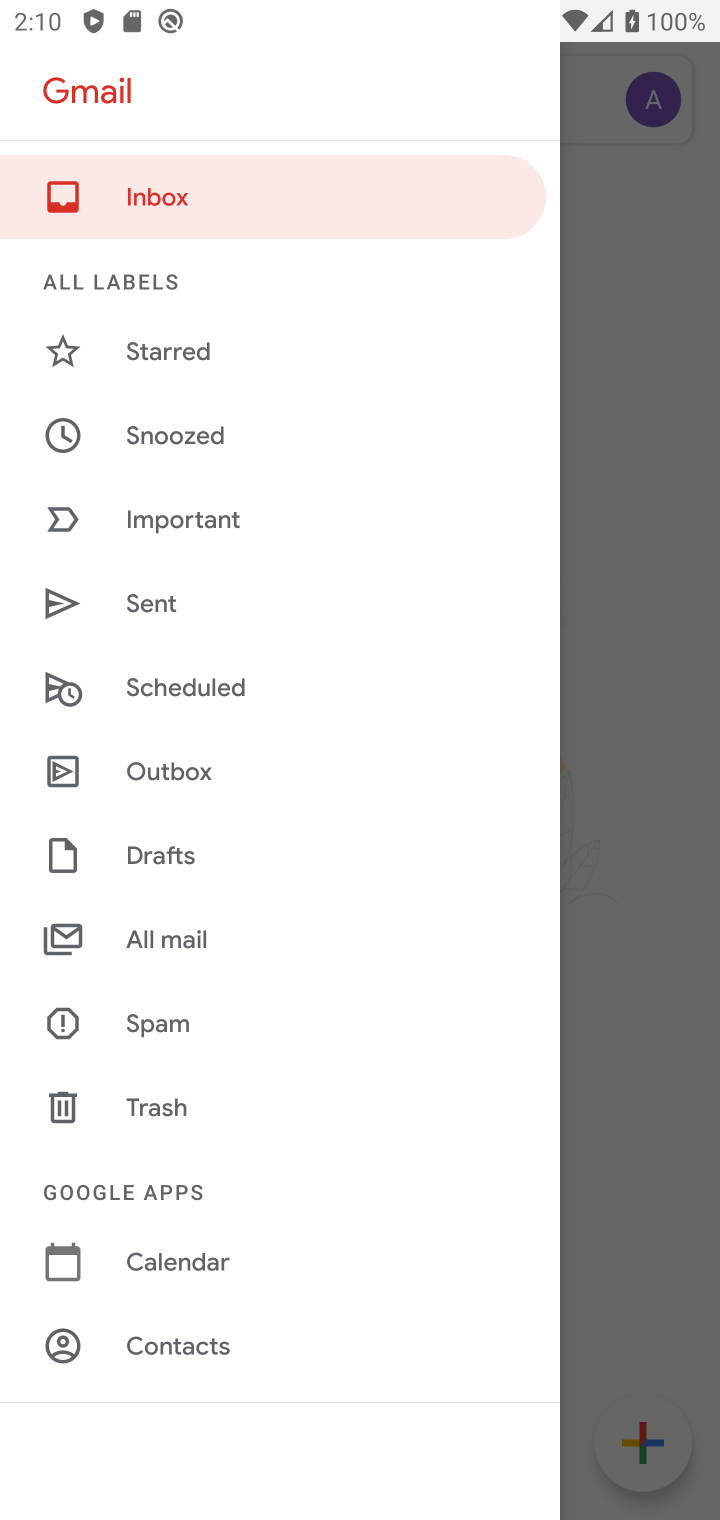
Step 32: drag from (148, 994) to (92, 552)
Your task to perform on an android device: move a message to another label in the gmail app Image 33: 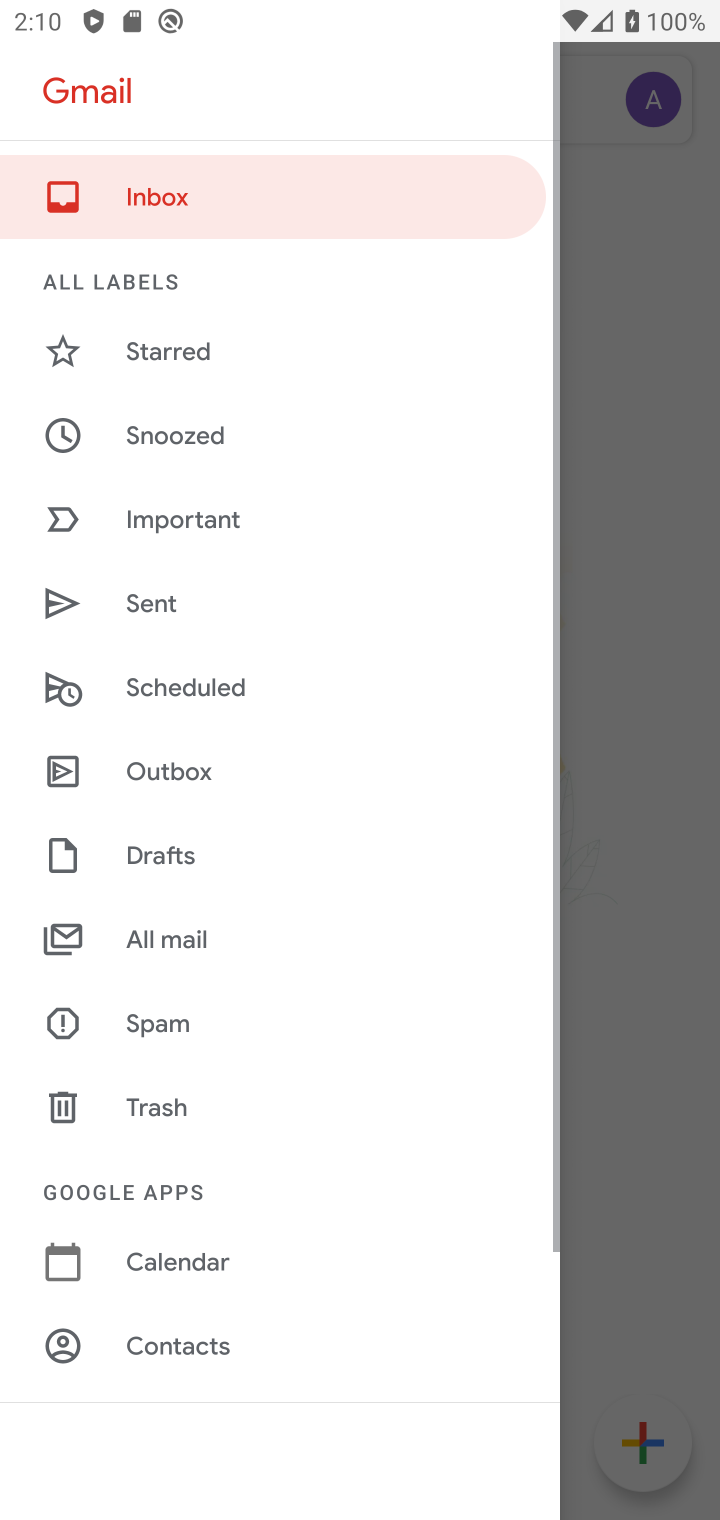
Step 33: drag from (136, 993) to (141, 542)
Your task to perform on an android device: move a message to another label in the gmail app Image 34: 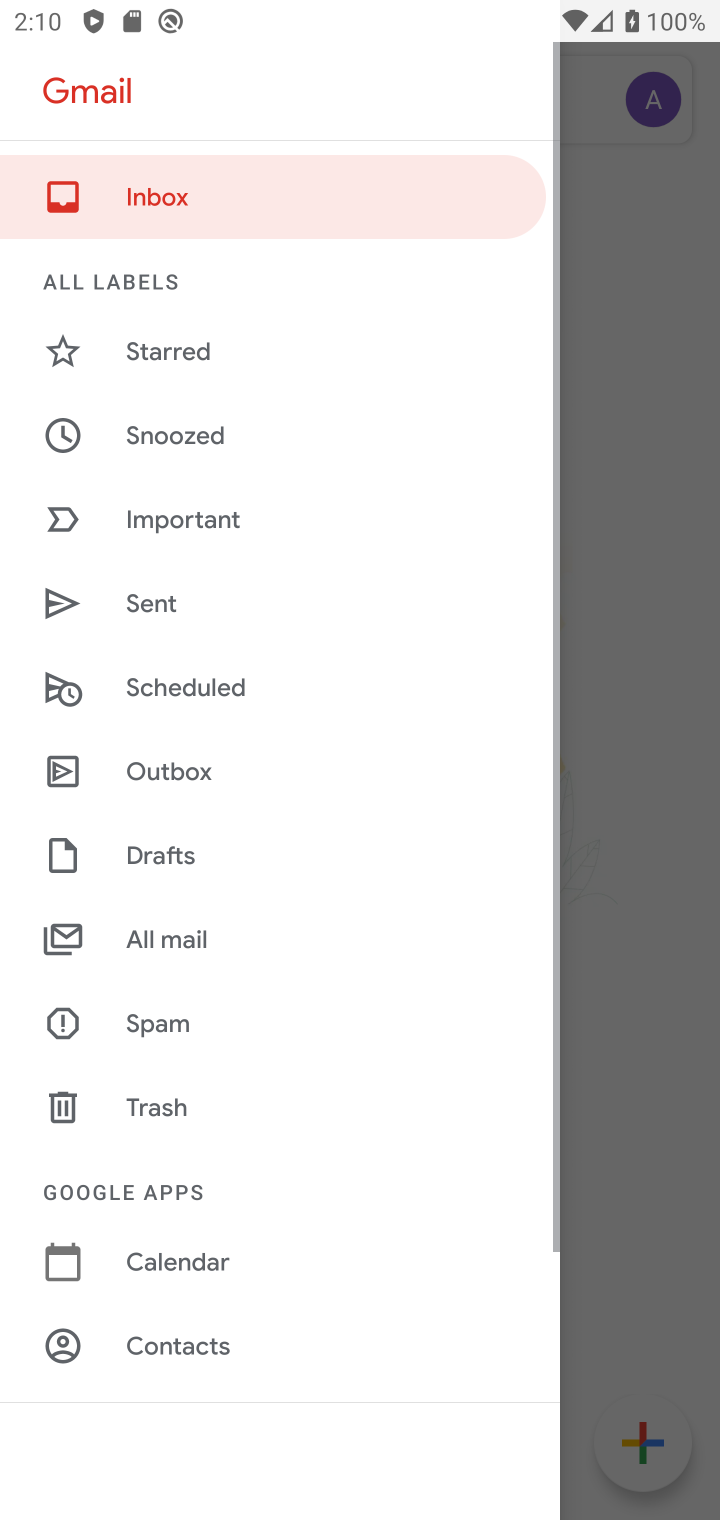
Step 34: drag from (184, 600) to (145, 284)
Your task to perform on an android device: move a message to another label in the gmail app Image 35: 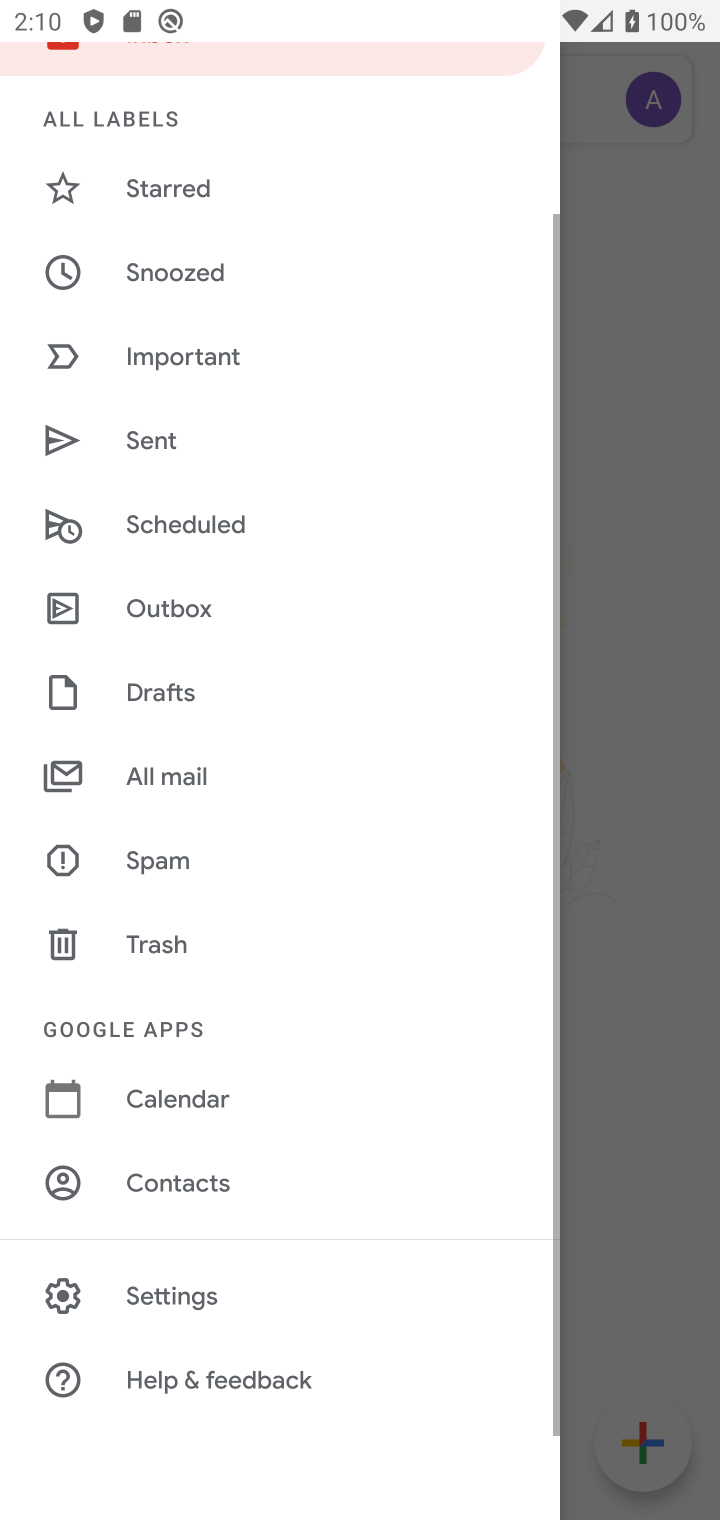
Step 35: click (75, 458)
Your task to perform on an android device: move a message to another label in the gmail app Image 36: 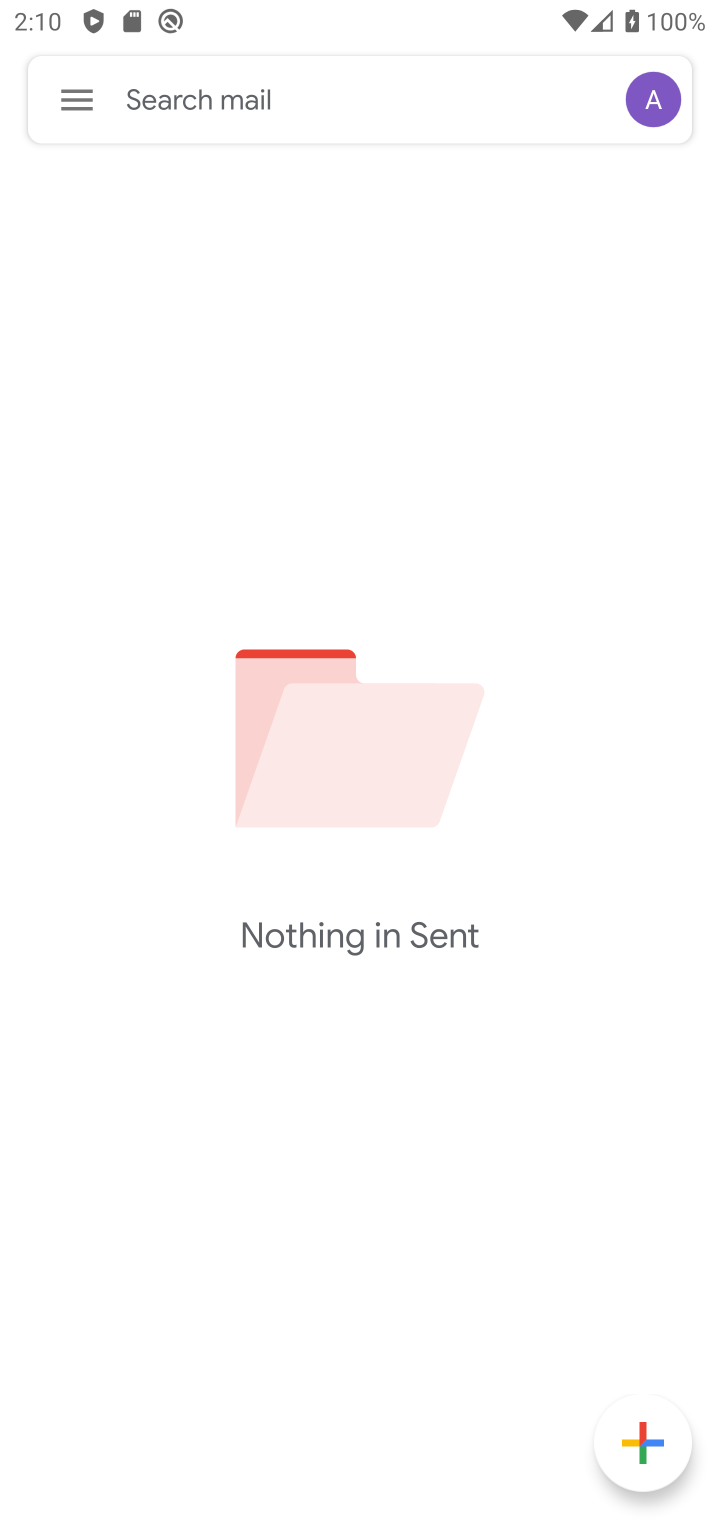
Step 36: click (71, 104)
Your task to perform on an android device: move a message to another label in the gmail app Image 37: 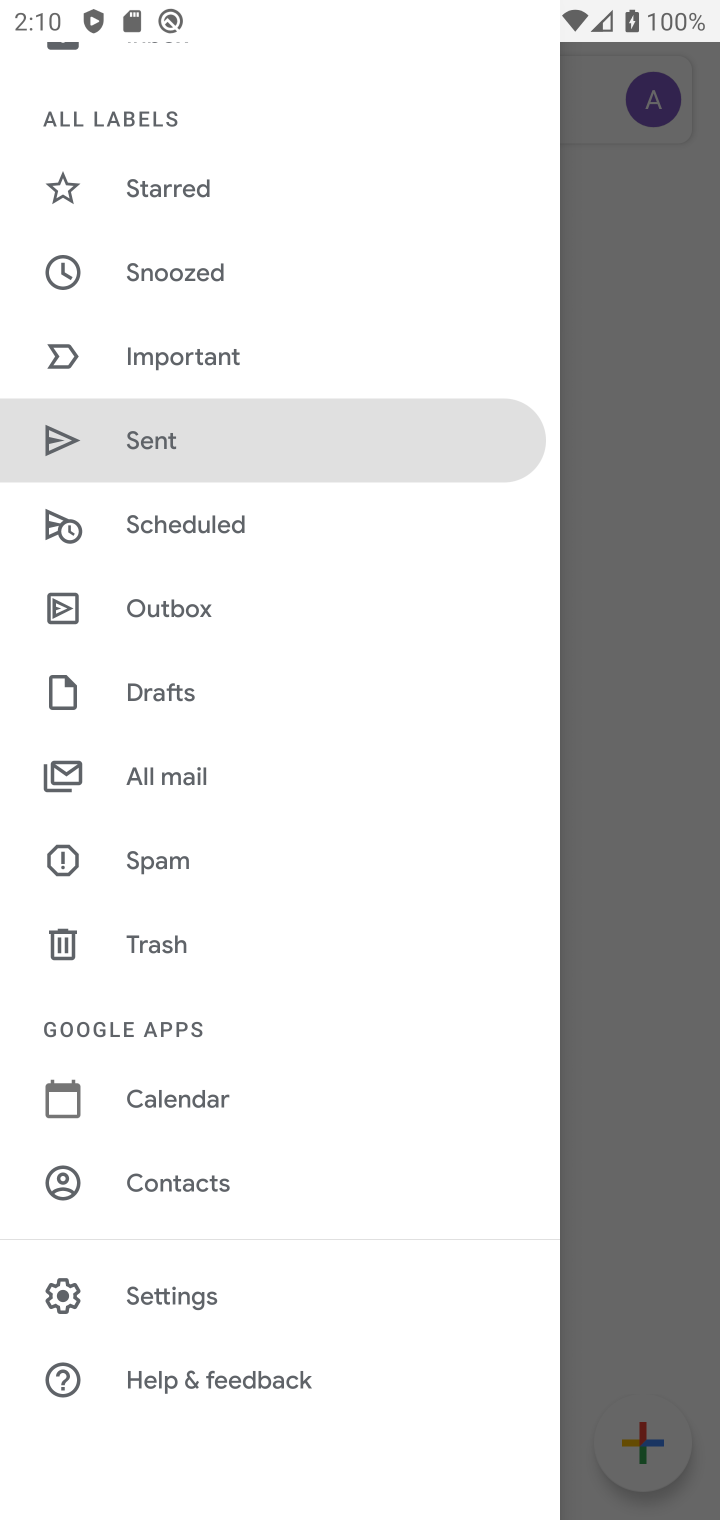
Step 37: click (161, 1279)
Your task to perform on an android device: move a message to another label in the gmail app Image 38: 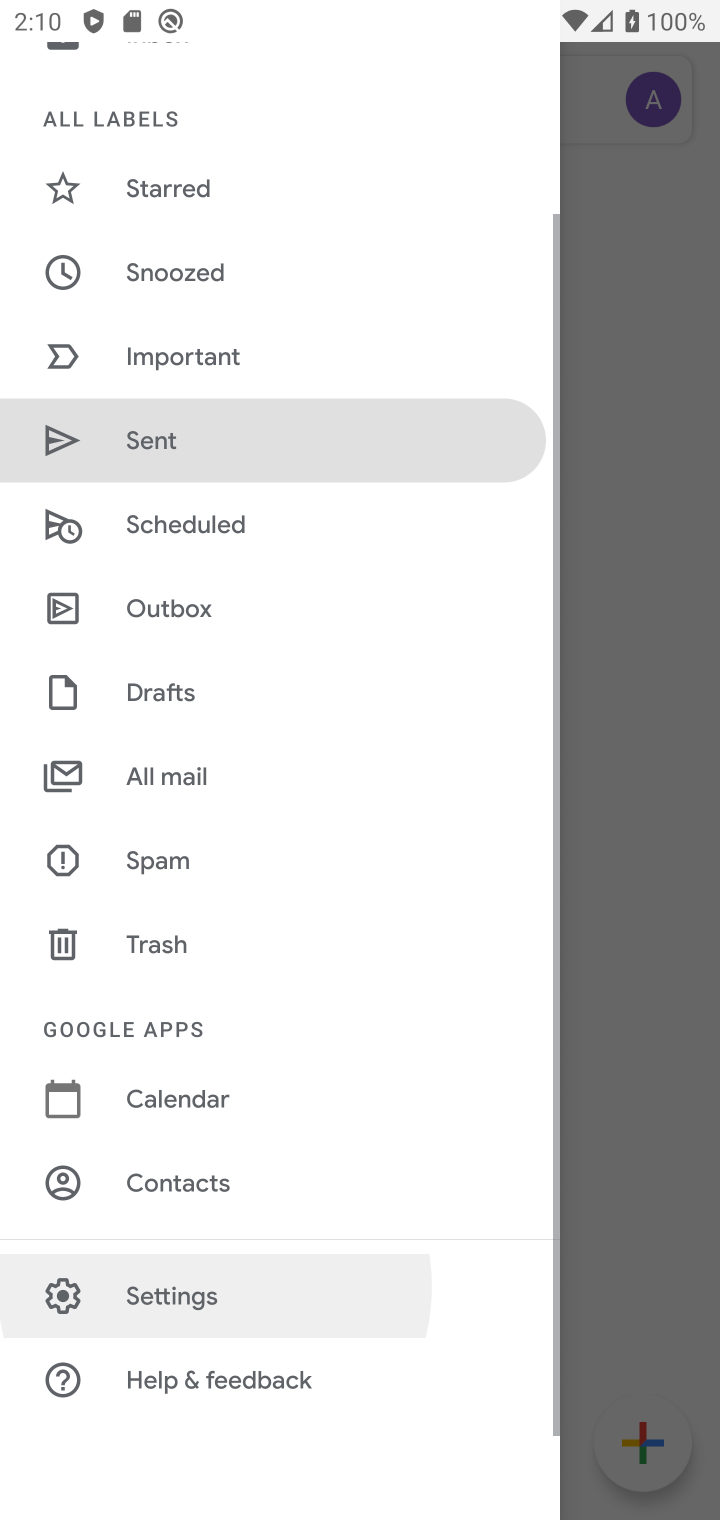
Step 38: click (152, 1279)
Your task to perform on an android device: move a message to another label in the gmail app Image 39: 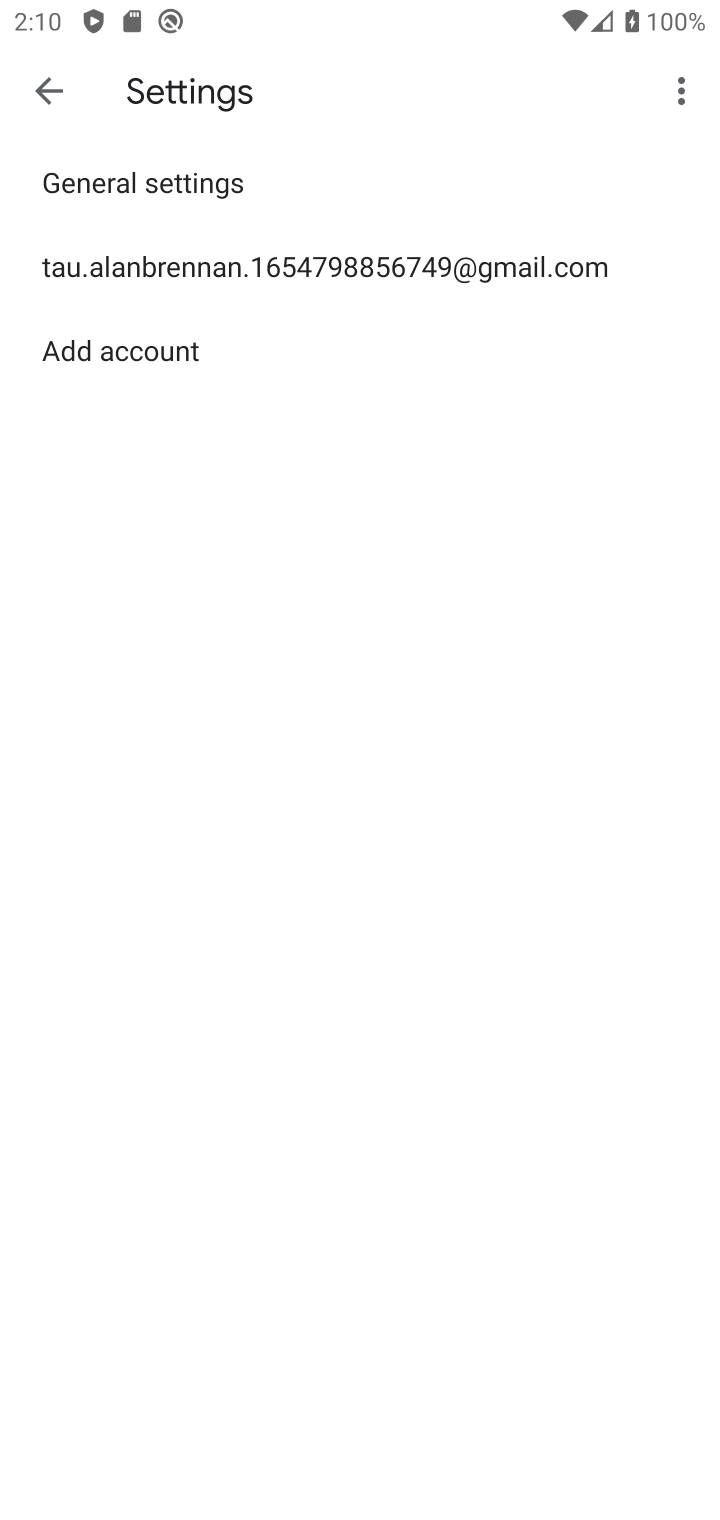
Step 39: click (251, 278)
Your task to perform on an android device: move a message to another label in the gmail app Image 40: 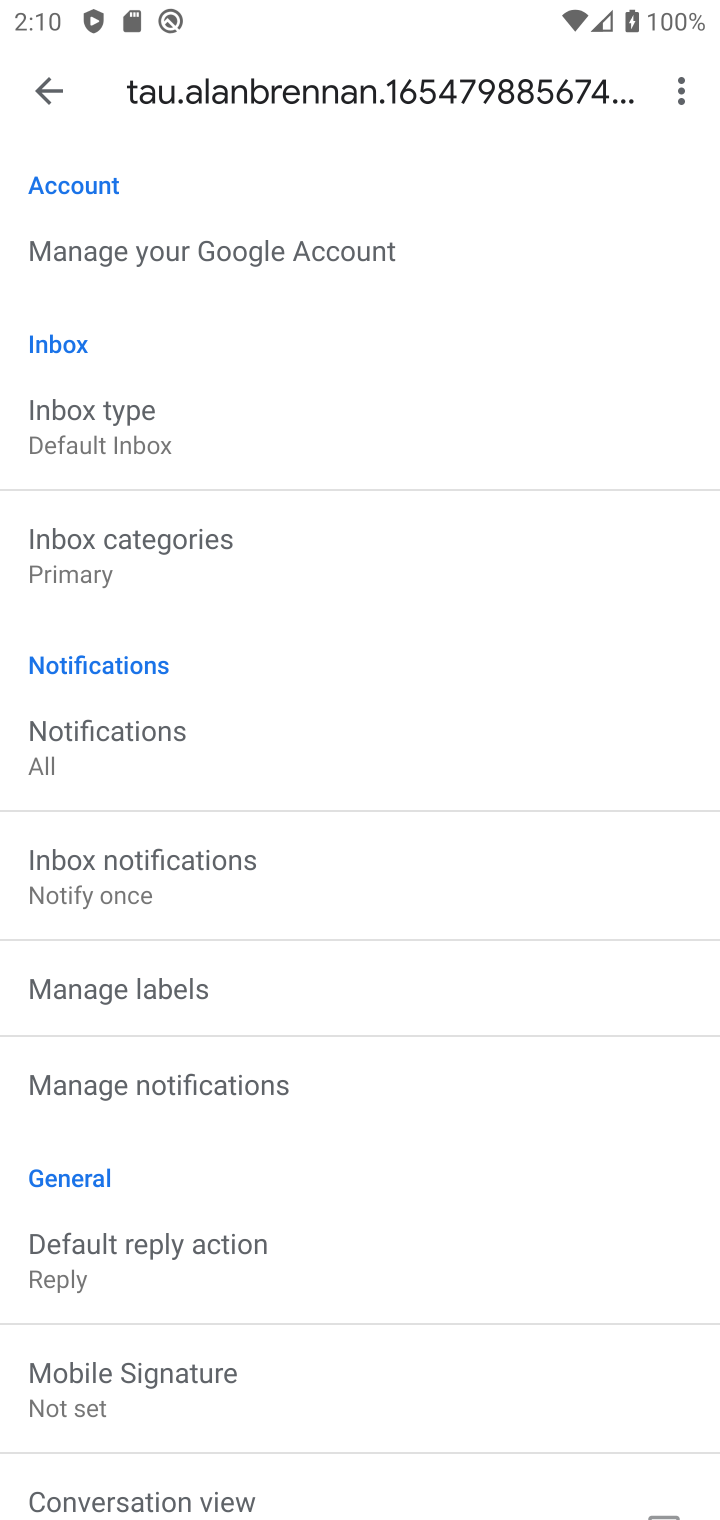
Step 40: click (33, 95)
Your task to perform on an android device: move a message to another label in the gmail app Image 41: 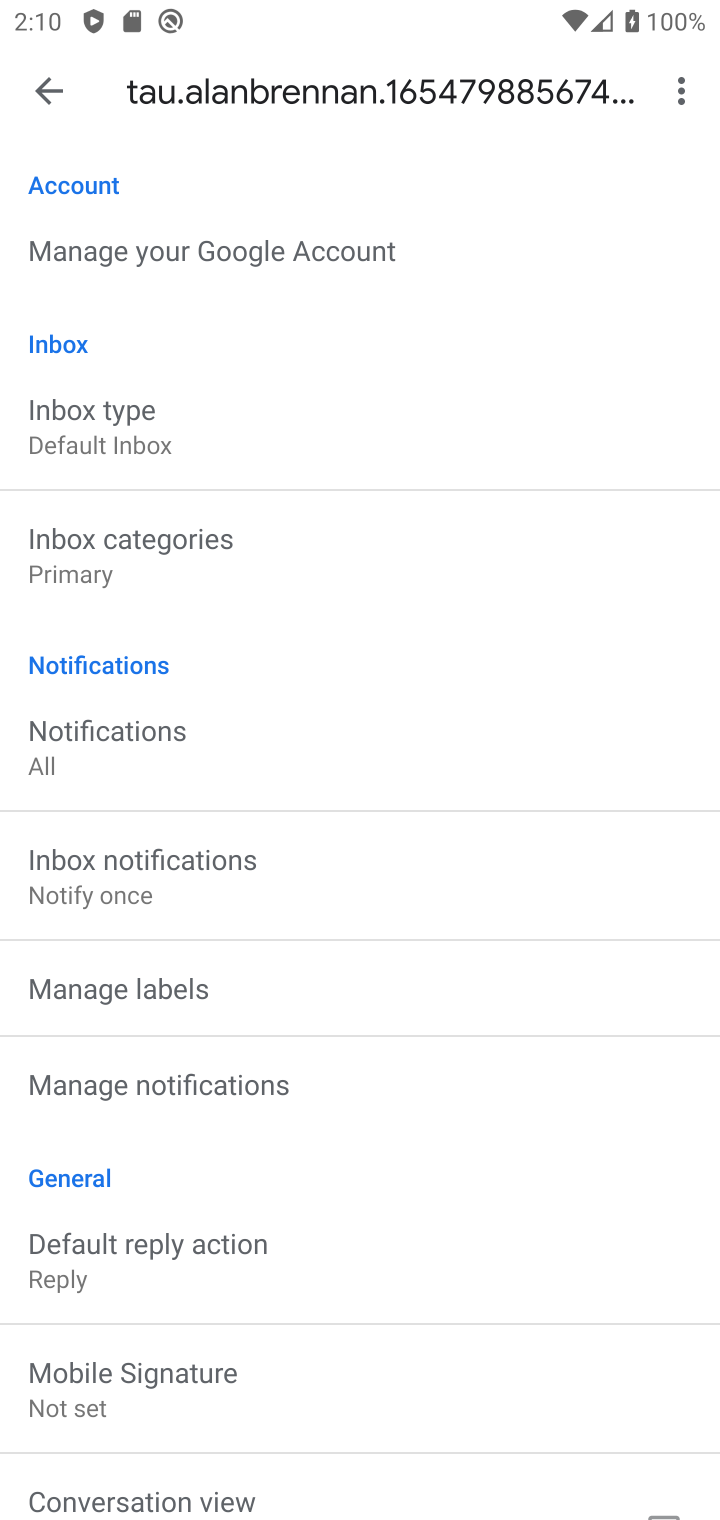
Step 41: click (34, 93)
Your task to perform on an android device: move a message to another label in the gmail app Image 42: 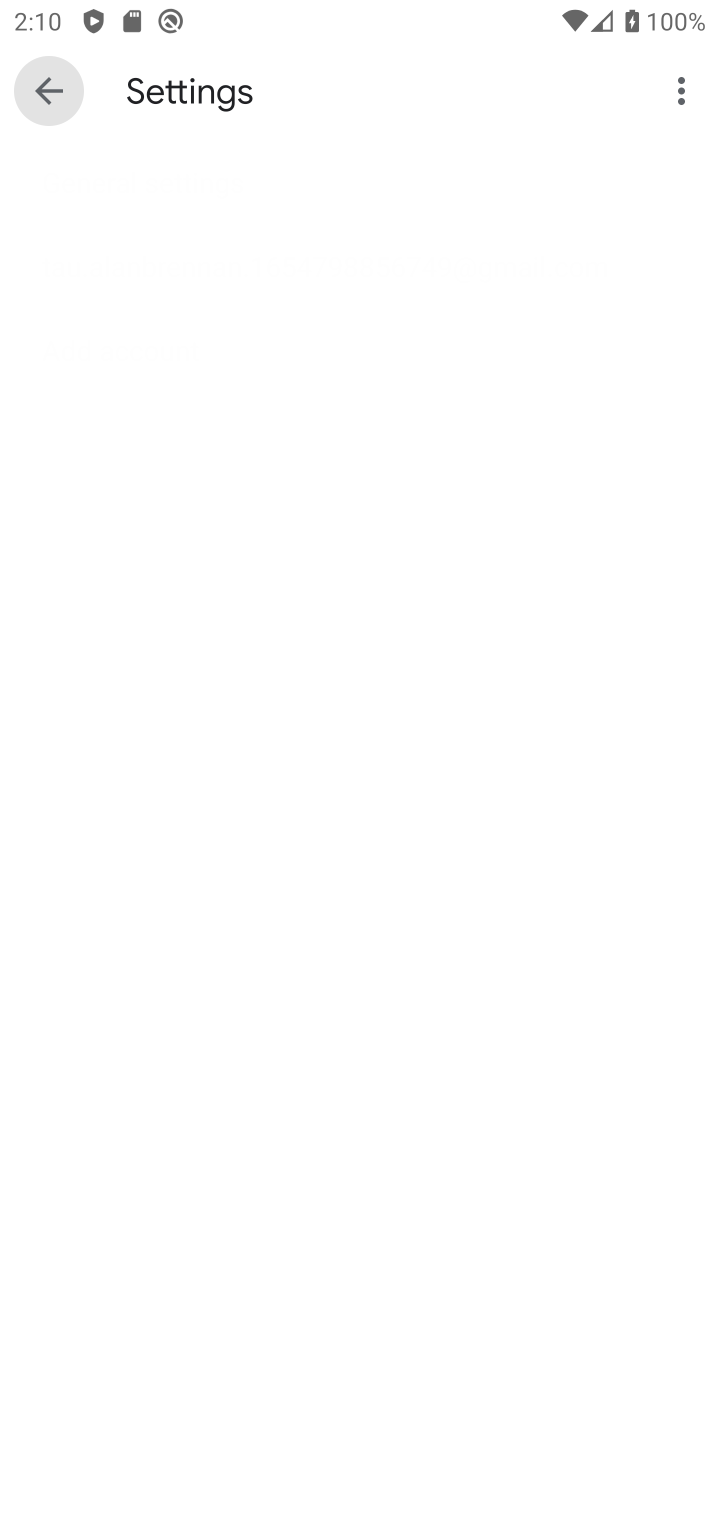
Step 42: click (36, 91)
Your task to perform on an android device: move a message to another label in the gmail app Image 43: 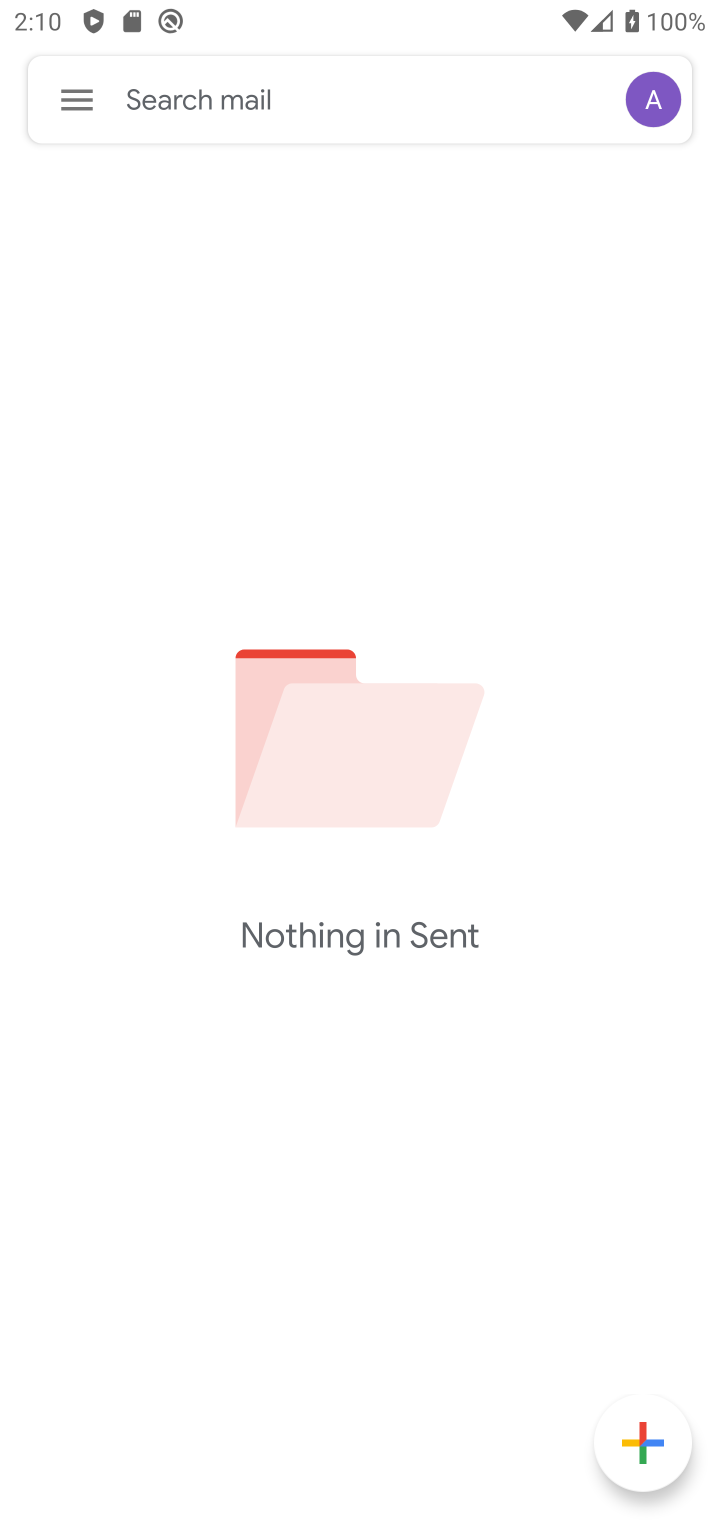
Step 43: click (72, 109)
Your task to perform on an android device: move a message to another label in the gmail app Image 44: 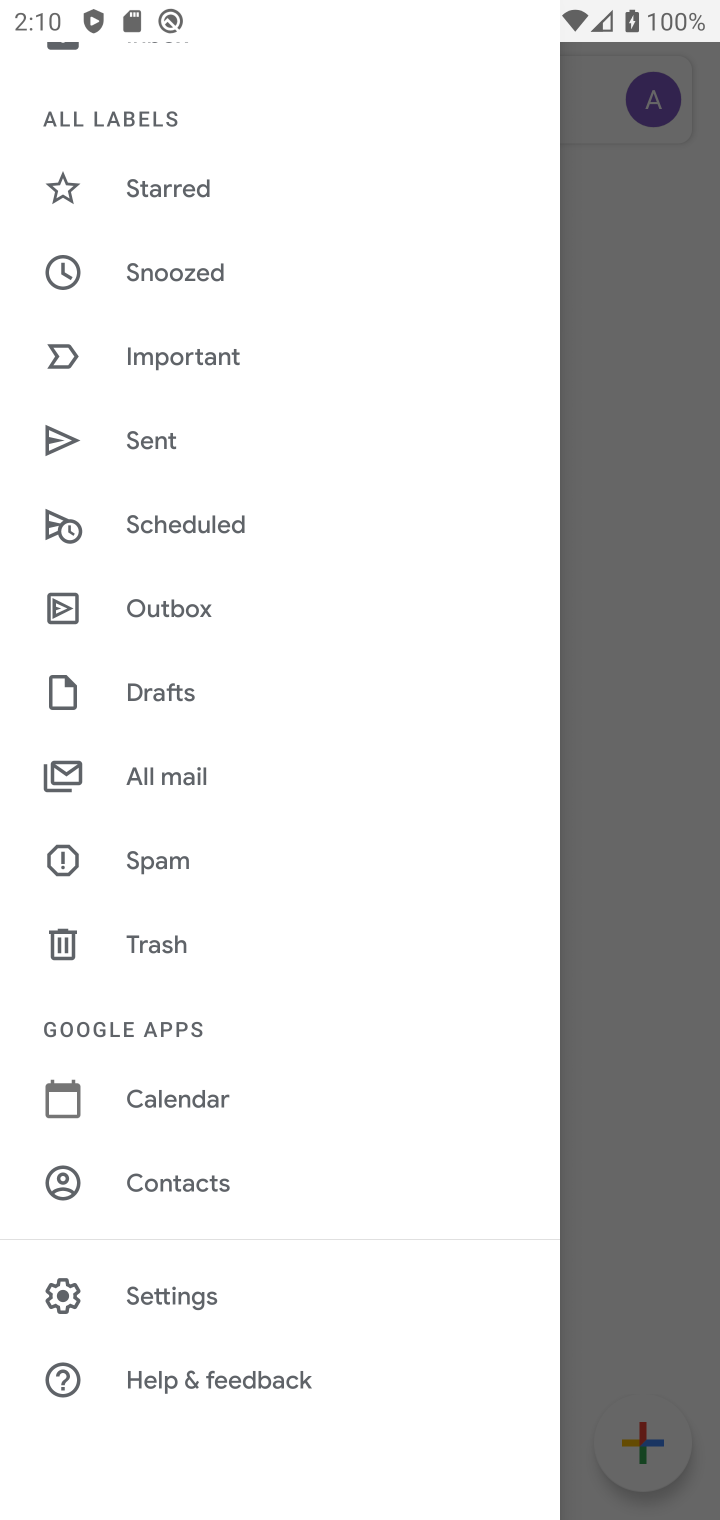
Step 44: click (191, 766)
Your task to perform on an android device: move a message to another label in the gmail app Image 45: 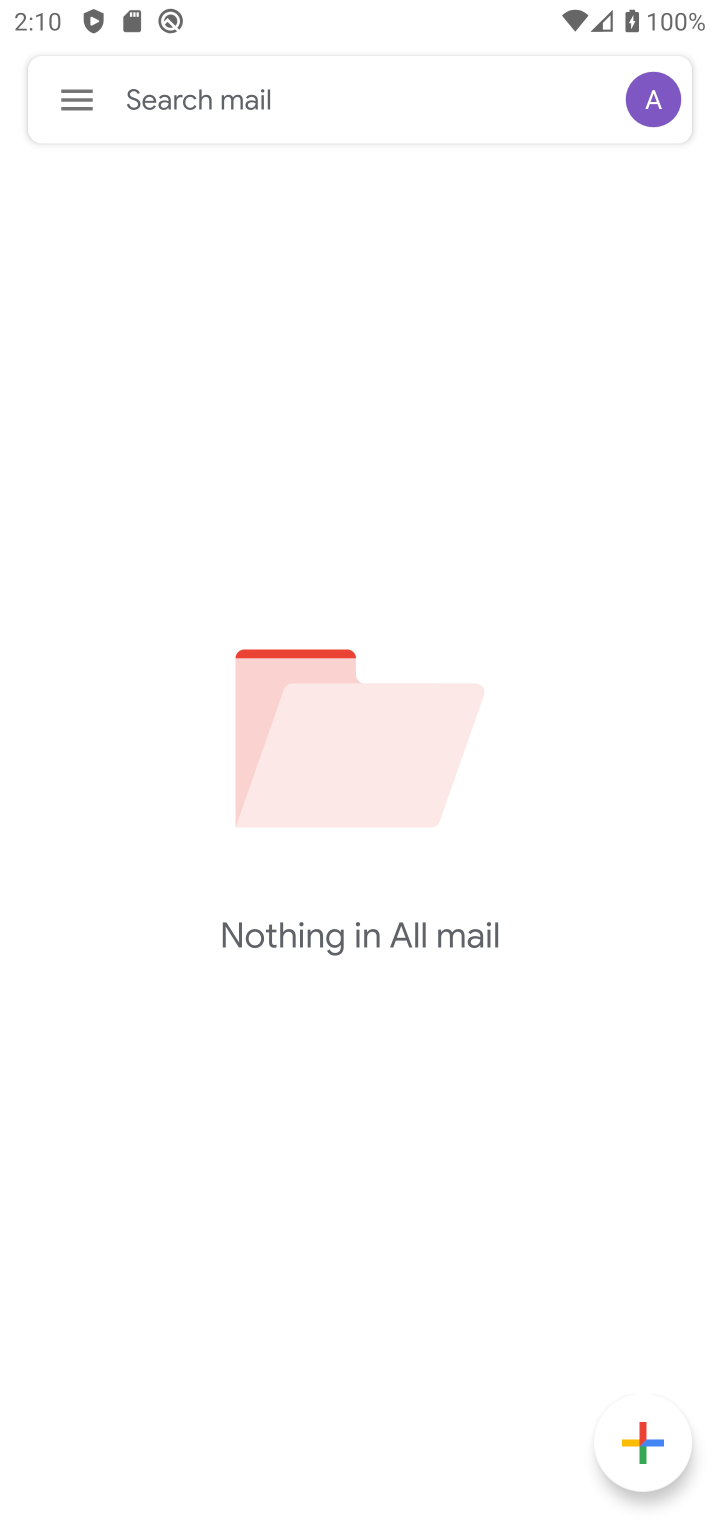
Step 45: task complete